Your task to perform on an android device: open app "eBay: The shopping marketplace" (install if not already installed) Image 0: 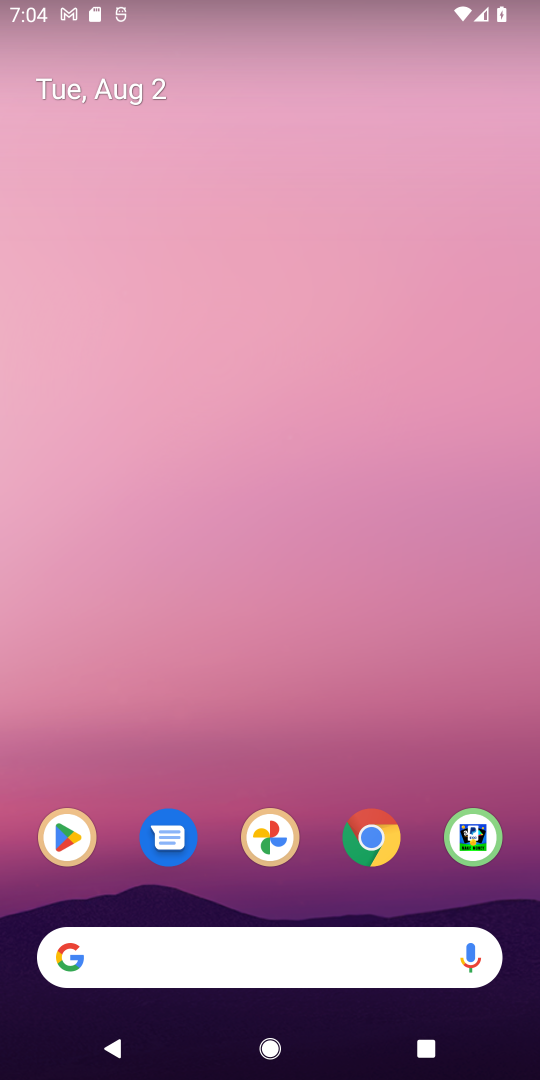
Step 0: press home button
Your task to perform on an android device: open app "eBay: The shopping marketplace" (install if not already installed) Image 1: 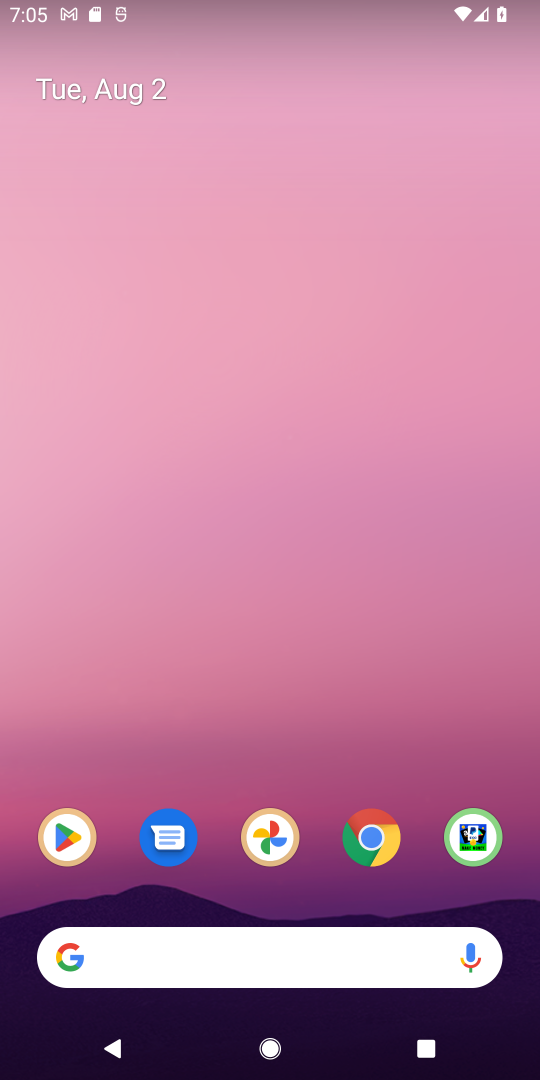
Step 1: drag from (229, 882) to (255, 273)
Your task to perform on an android device: open app "eBay: The shopping marketplace" (install if not already installed) Image 2: 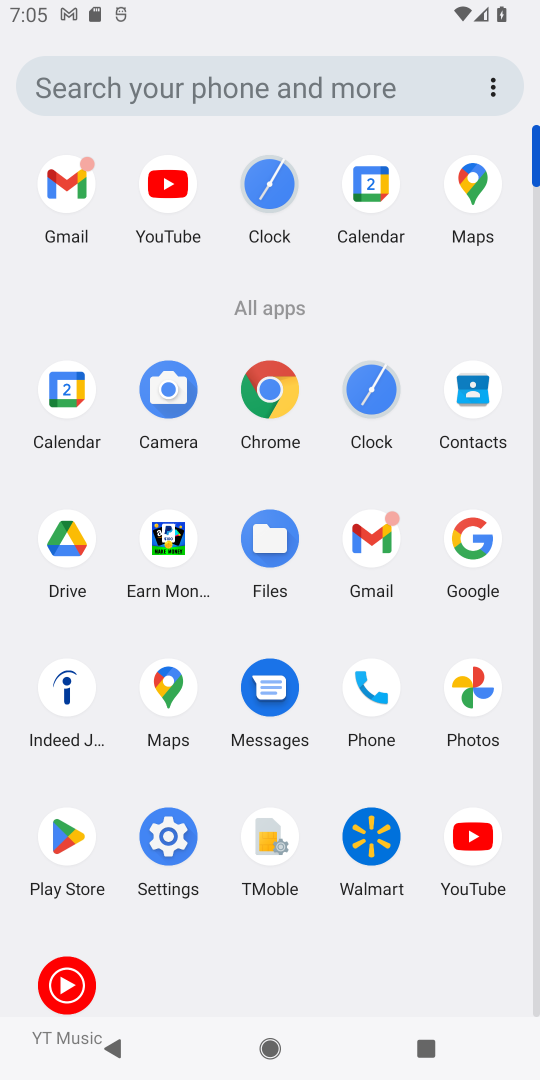
Step 2: drag from (318, 895) to (332, 132)
Your task to perform on an android device: open app "eBay: The shopping marketplace" (install if not already installed) Image 3: 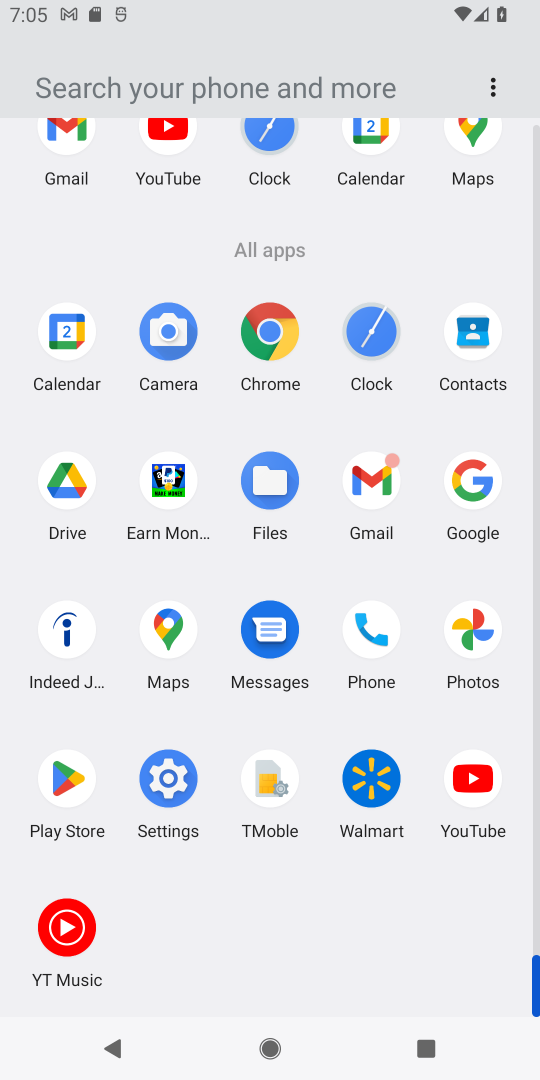
Step 3: drag from (286, 854) to (314, 138)
Your task to perform on an android device: open app "eBay: The shopping marketplace" (install if not already installed) Image 4: 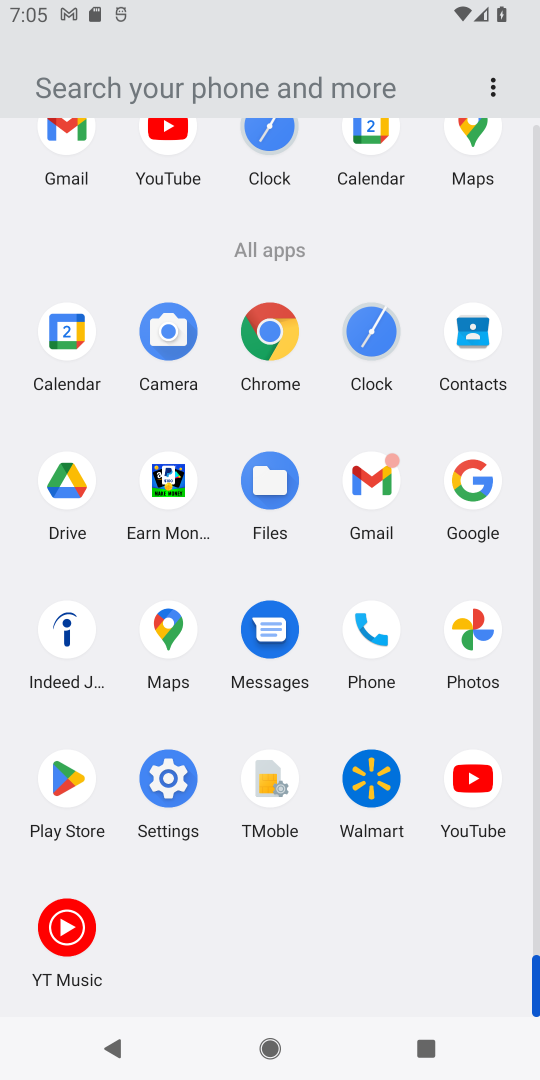
Step 4: click (307, 421)
Your task to perform on an android device: open app "eBay: The shopping marketplace" (install if not already installed) Image 5: 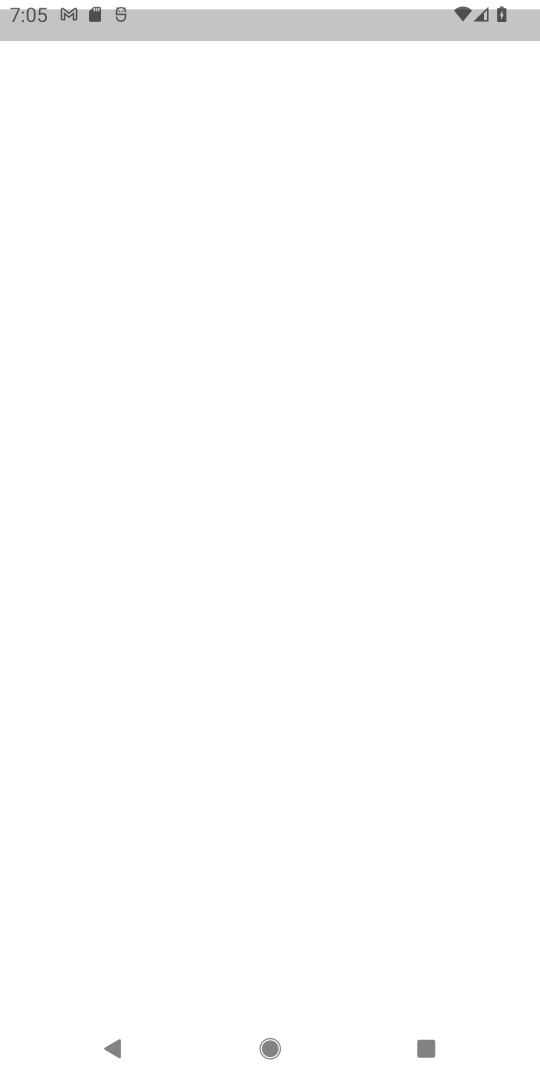
Step 5: drag from (325, 832) to (325, 439)
Your task to perform on an android device: open app "eBay: The shopping marketplace" (install if not already installed) Image 6: 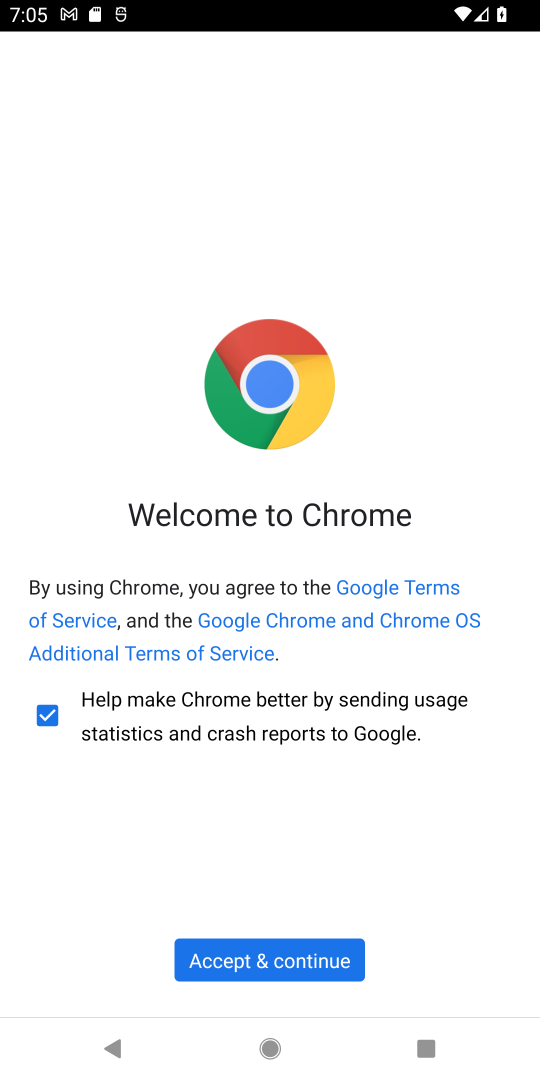
Step 6: drag from (335, 855) to (388, 331)
Your task to perform on an android device: open app "eBay: The shopping marketplace" (install if not already installed) Image 7: 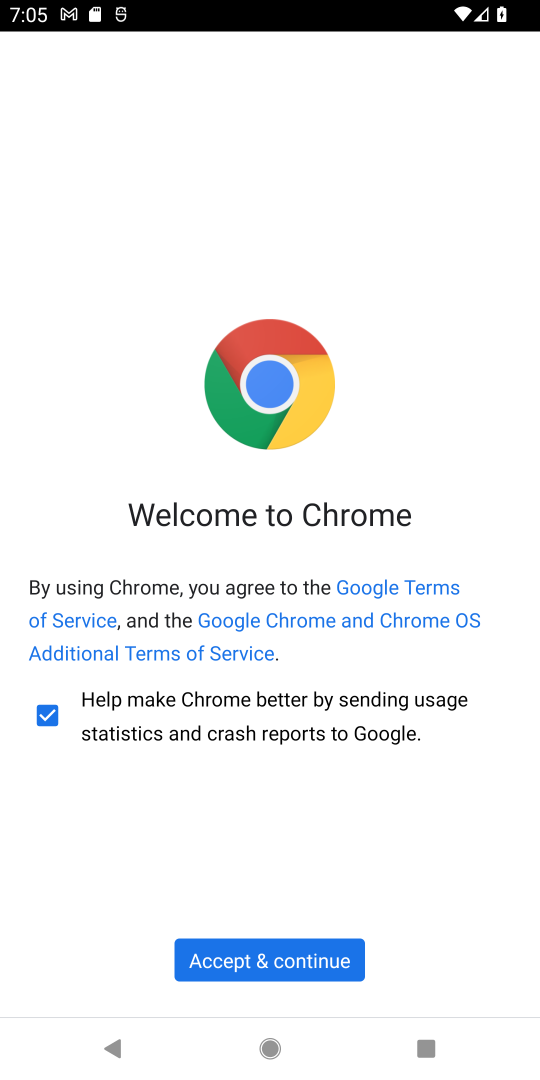
Step 7: drag from (386, 884) to (388, 384)
Your task to perform on an android device: open app "eBay: The shopping marketplace" (install if not already installed) Image 8: 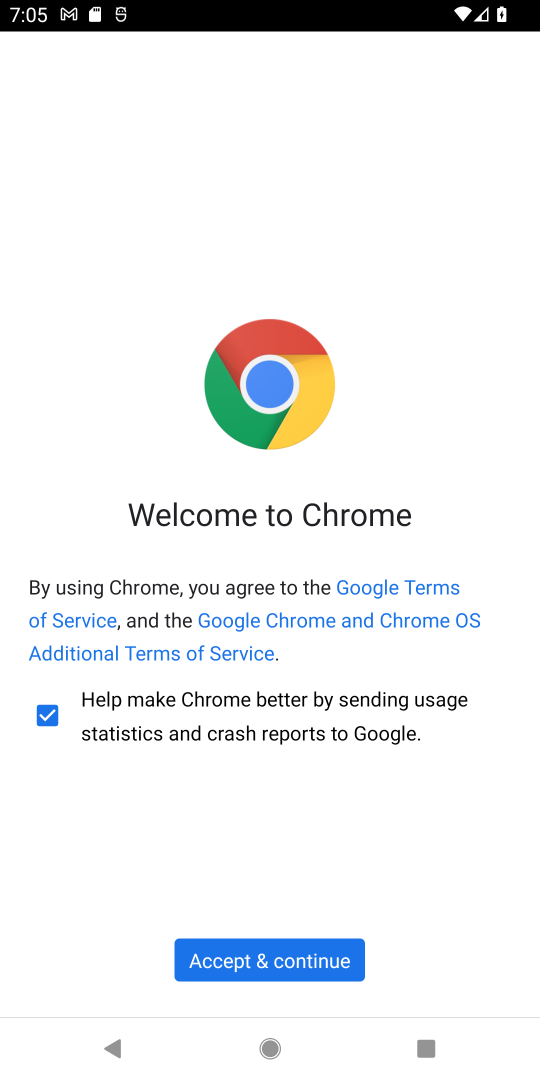
Step 8: drag from (361, 837) to (385, 716)
Your task to perform on an android device: open app "eBay: The shopping marketplace" (install if not already installed) Image 9: 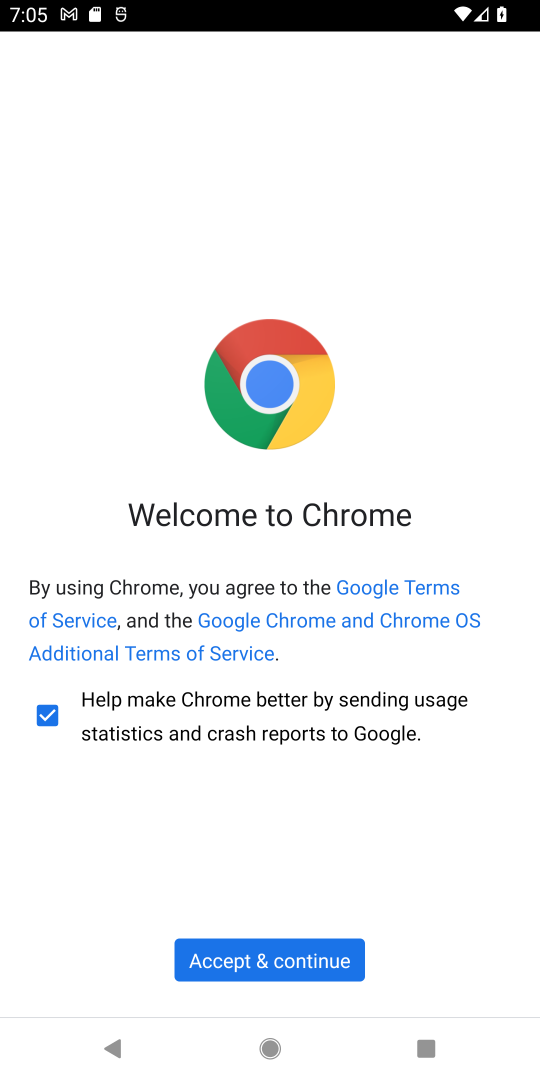
Step 9: drag from (416, 743) to (423, 518)
Your task to perform on an android device: open app "eBay: The shopping marketplace" (install if not already installed) Image 10: 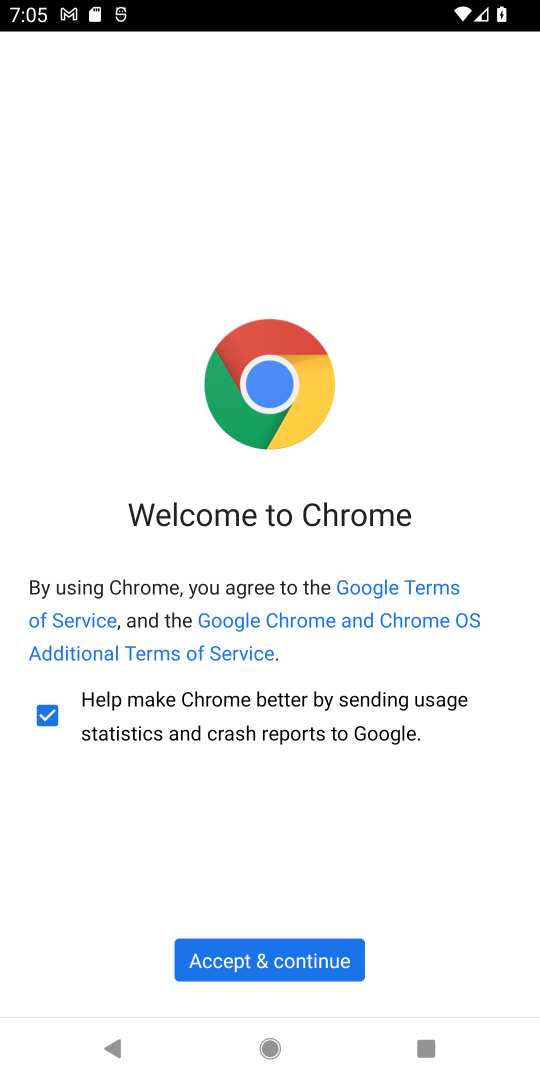
Step 10: drag from (375, 773) to (375, 706)
Your task to perform on an android device: open app "eBay: The shopping marketplace" (install if not already installed) Image 11: 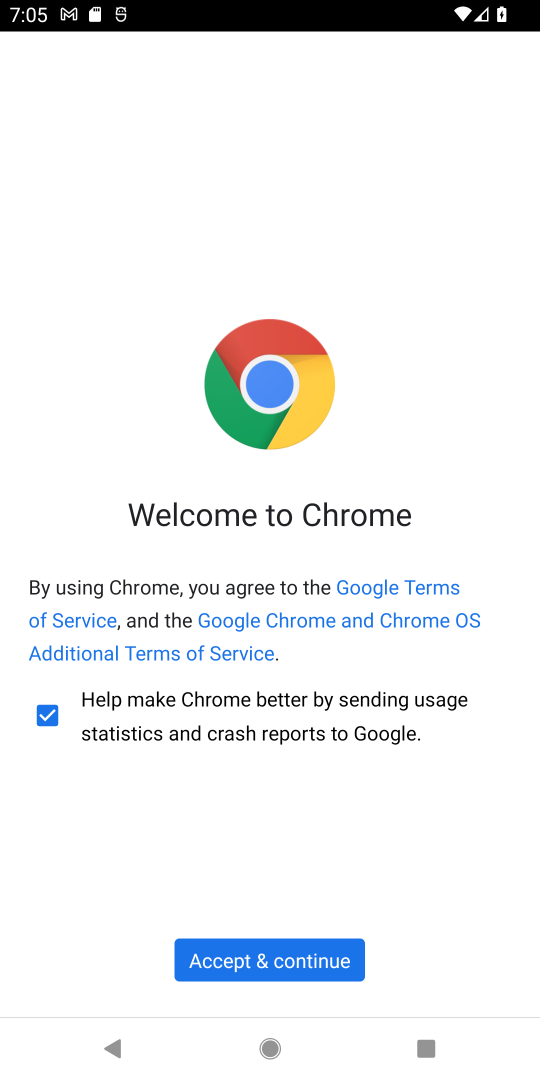
Step 11: drag from (419, 788) to (469, 466)
Your task to perform on an android device: open app "eBay: The shopping marketplace" (install if not already installed) Image 12: 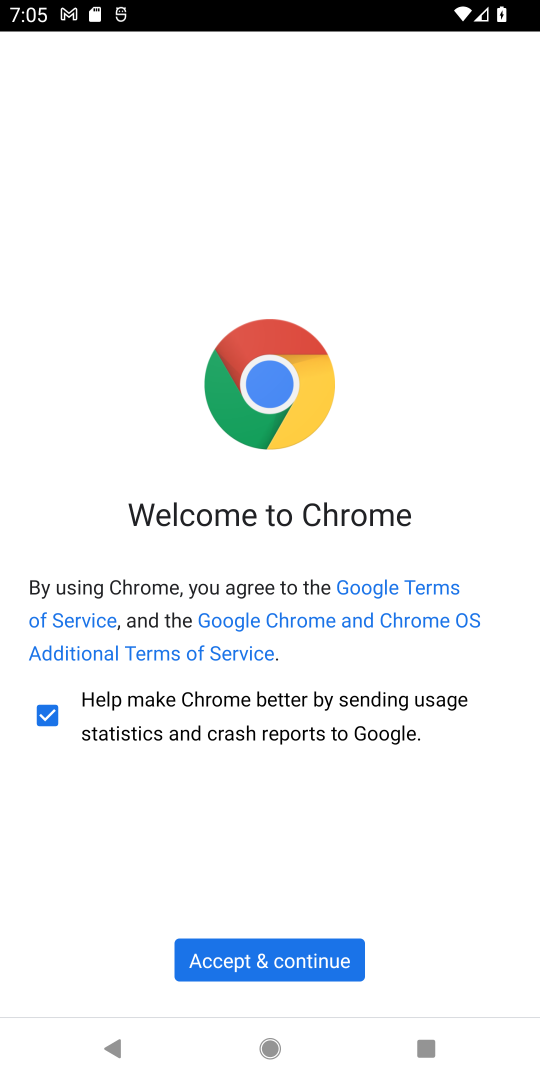
Step 12: drag from (280, 543) to (352, 857)
Your task to perform on an android device: open app "eBay: The shopping marketplace" (install if not already installed) Image 13: 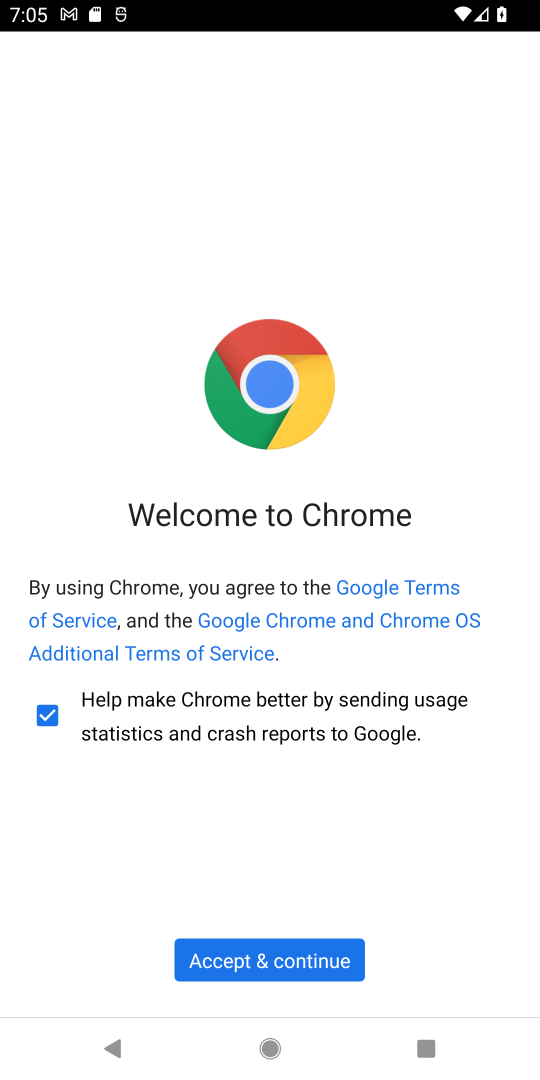
Step 13: drag from (300, 527) to (342, 1068)
Your task to perform on an android device: open app "eBay: The shopping marketplace" (install if not already installed) Image 14: 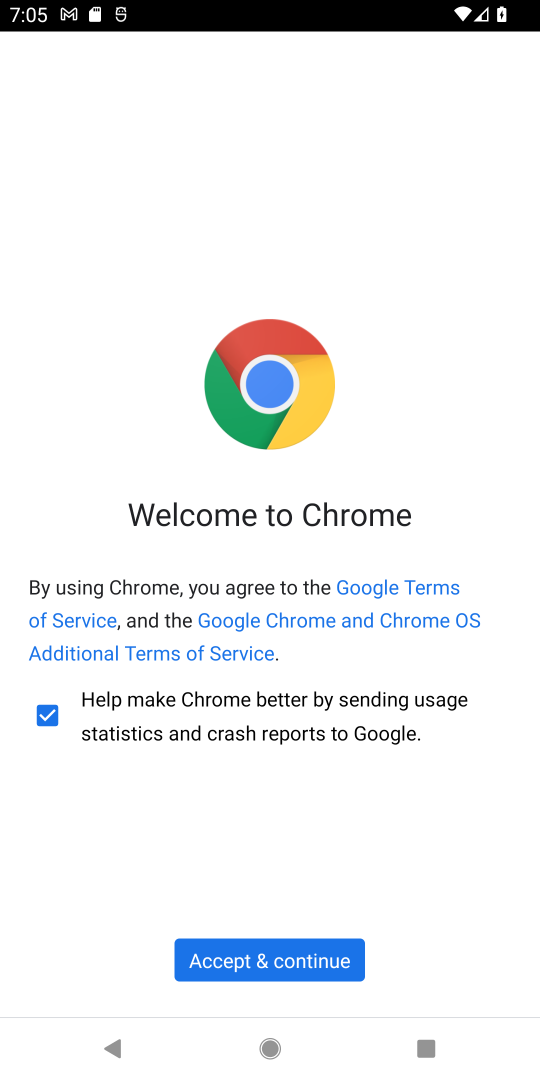
Step 14: drag from (287, 521) to (325, 832)
Your task to perform on an android device: open app "eBay: The shopping marketplace" (install if not already installed) Image 15: 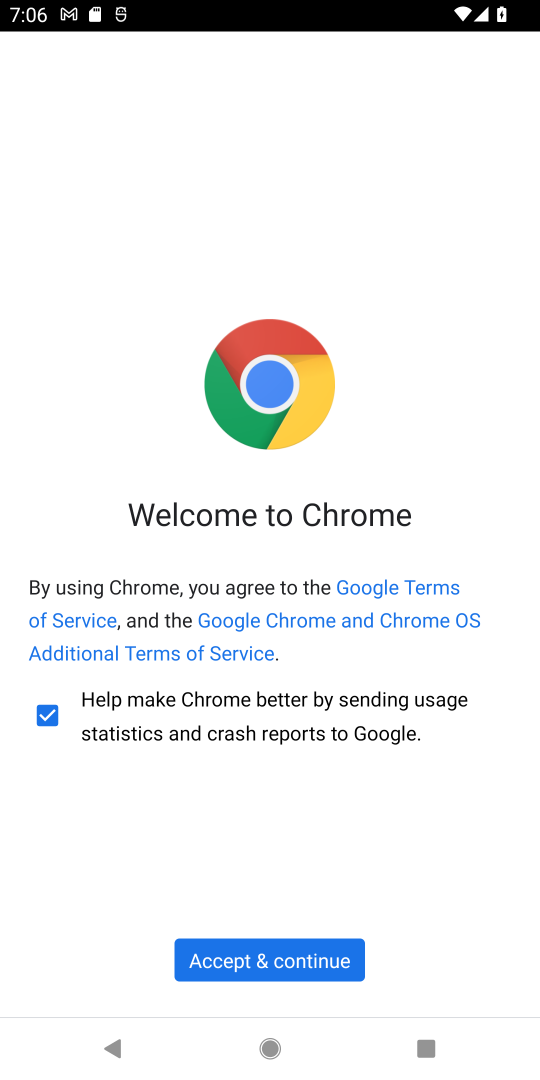
Step 15: drag from (234, 875) to (301, 441)
Your task to perform on an android device: open app "eBay: The shopping marketplace" (install if not already installed) Image 16: 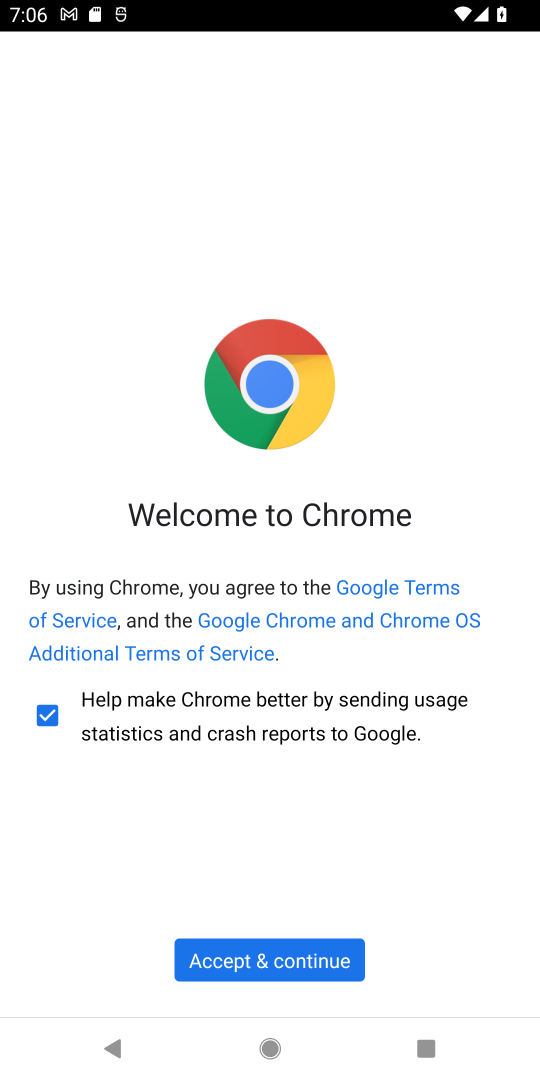
Step 16: press home button
Your task to perform on an android device: open app "eBay: The shopping marketplace" (install if not already installed) Image 17: 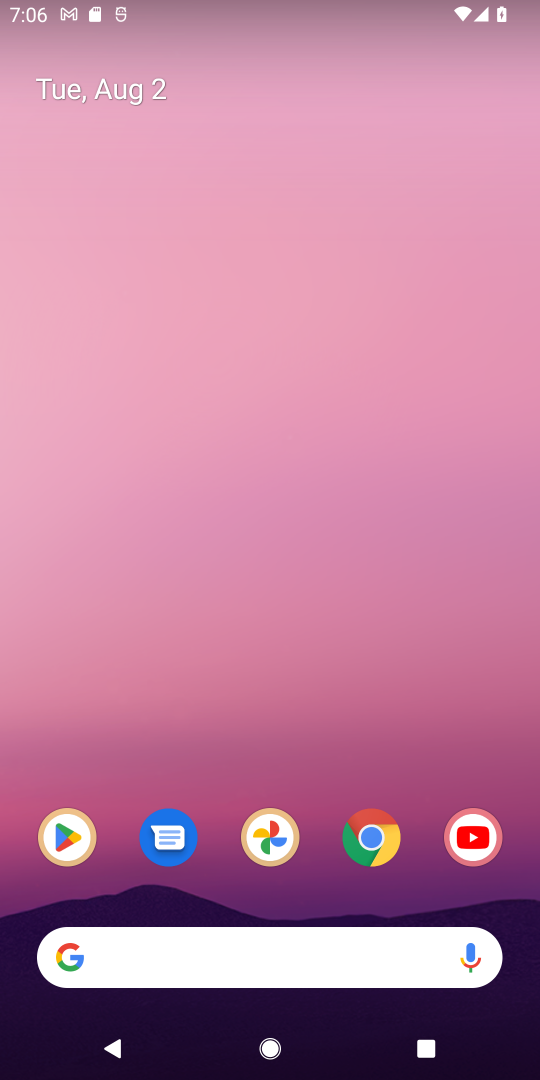
Step 17: drag from (245, 853) to (338, 462)
Your task to perform on an android device: open app "eBay: The shopping marketplace" (install if not already installed) Image 18: 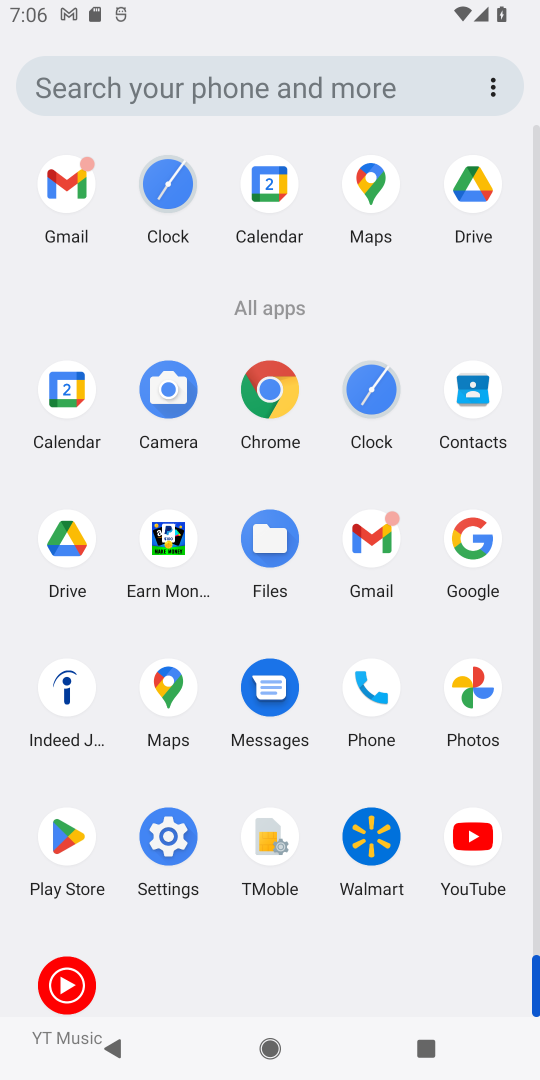
Step 18: drag from (291, 937) to (331, 409)
Your task to perform on an android device: open app "eBay: The shopping marketplace" (install if not already installed) Image 19: 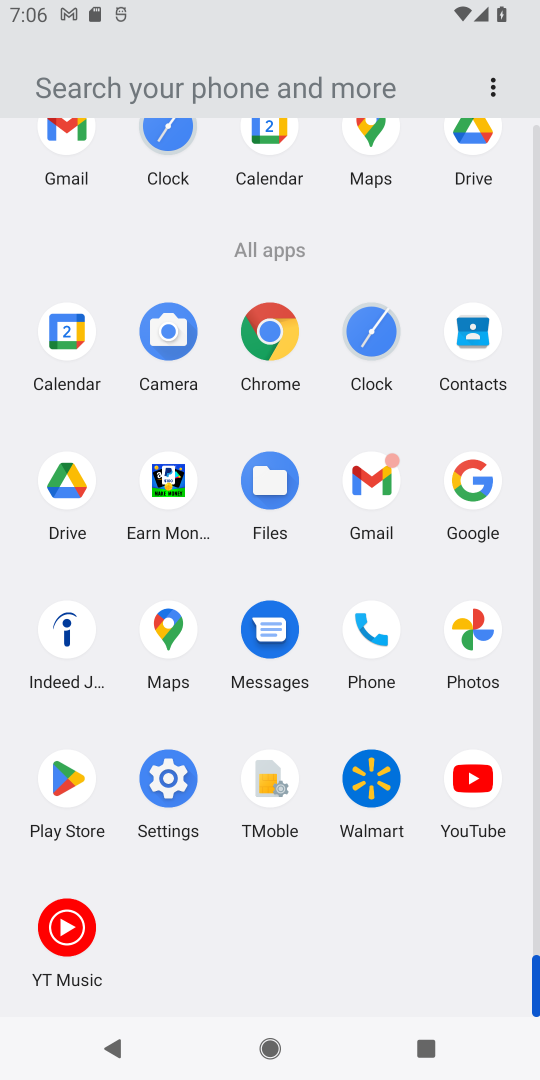
Step 19: click (72, 786)
Your task to perform on an android device: open app "eBay: The shopping marketplace" (install if not already installed) Image 20: 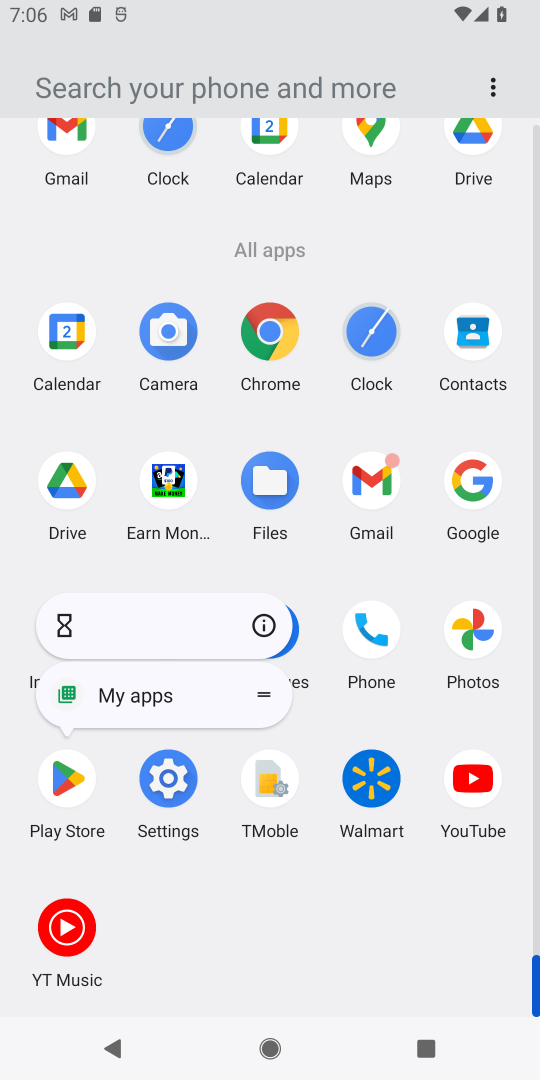
Step 20: click (267, 623)
Your task to perform on an android device: open app "eBay: The shopping marketplace" (install if not already installed) Image 21: 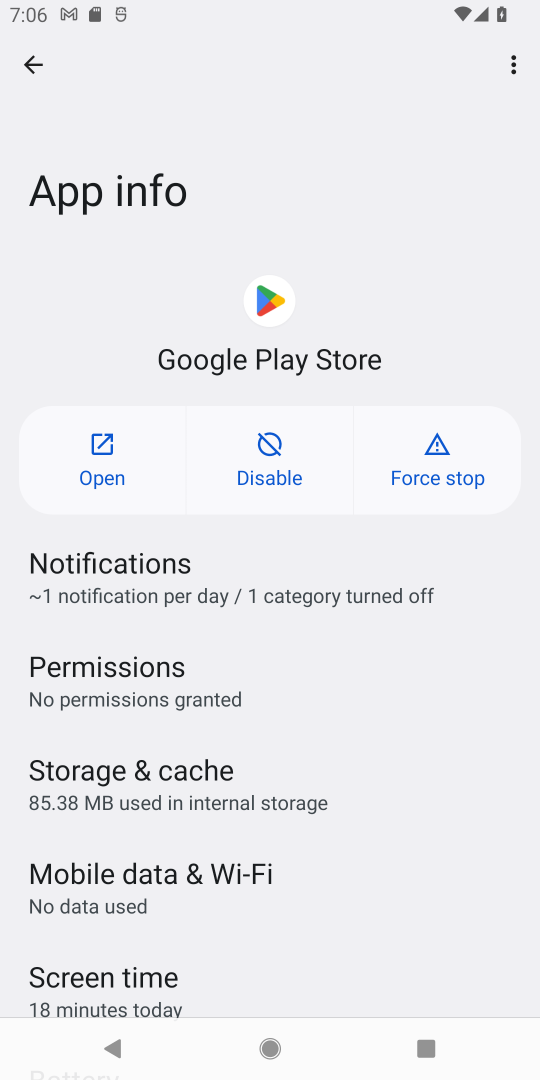
Step 21: click (115, 458)
Your task to perform on an android device: open app "eBay: The shopping marketplace" (install if not already installed) Image 22: 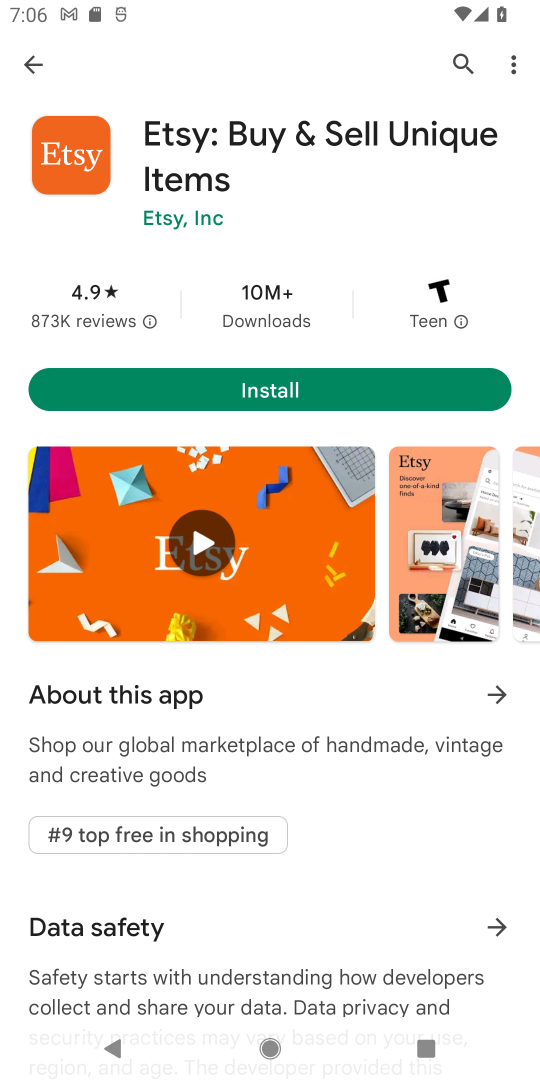
Step 22: drag from (351, 238) to (373, 1068)
Your task to perform on an android device: open app "eBay: The shopping marketplace" (install if not already installed) Image 23: 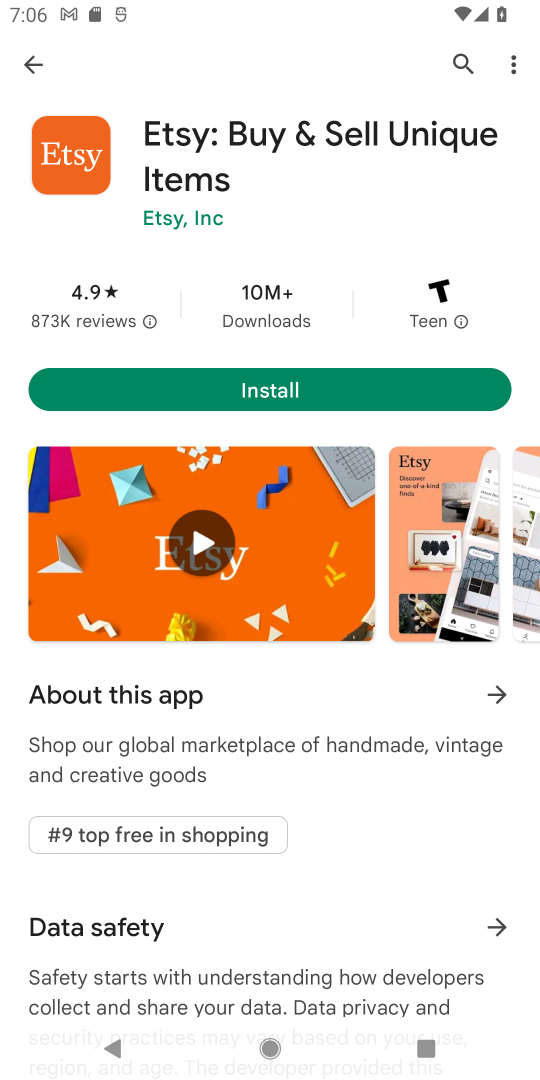
Step 23: drag from (355, 270) to (462, 1071)
Your task to perform on an android device: open app "eBay: The shopping marketplace" (install if not already installed) Image 24: 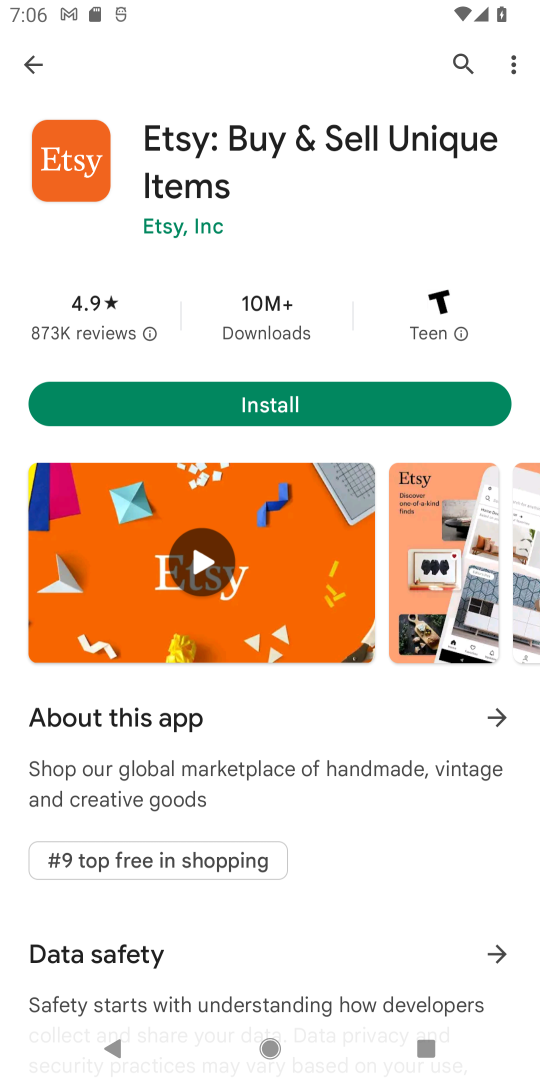
Step 24: drag from (348, 905) to (348, 448)
Your task to perform on an android device: open app "eBay: The shopping marketplace" (install if not already installed) Image 25: 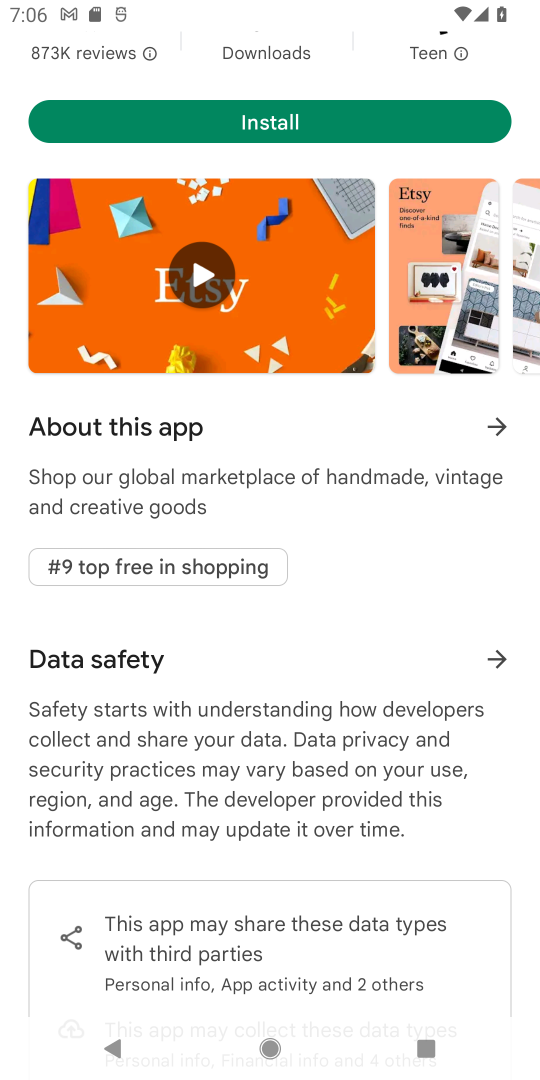
Step 25: drag from (349, 276) to (433, 1066)
Your task to perform on an android device: open app "eBay: The shopping marketplace" (install if not already installed) Image 26: 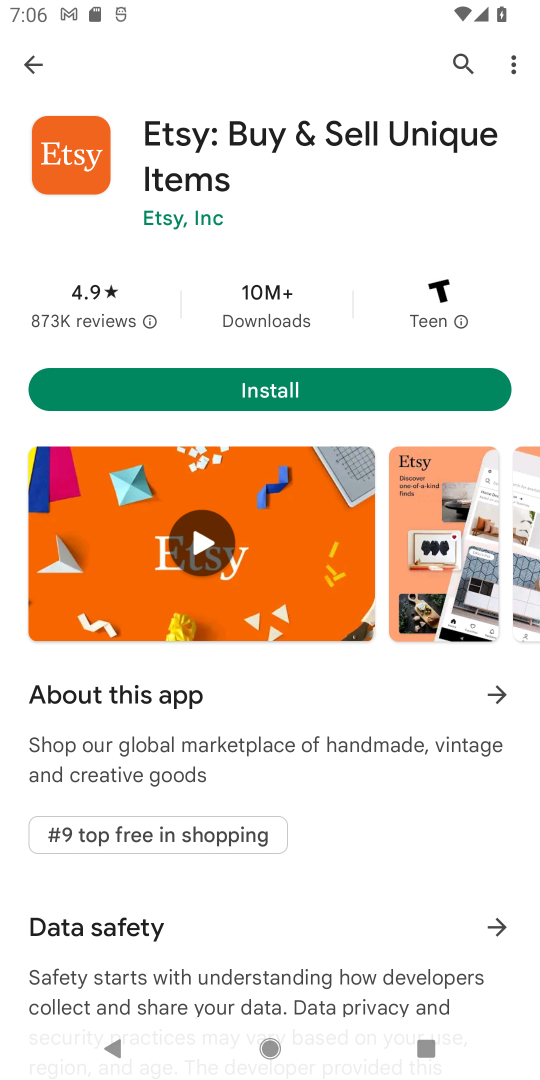
Step 26: drag from (376, 258) to (501, 1077)
Your task to perform on an android device: open app "eBay: The shopping marketplace" (install if not already installed) Image 27: 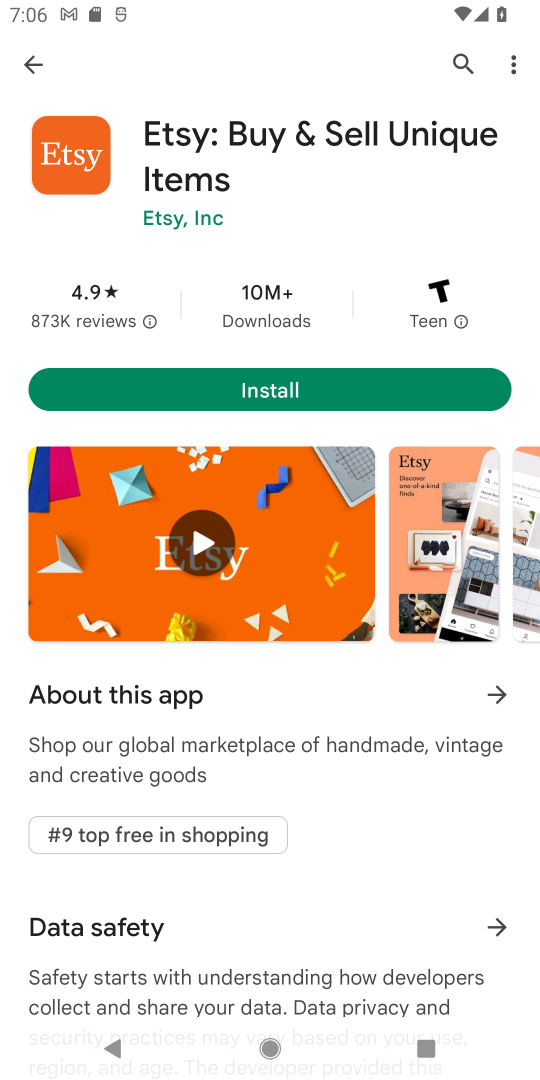
Step 27: drag from (337, 256) to (356, 837)
Your task to perform on an android device: open app "eBay: The shopping marketplace" (install if not already installed) Image 28: 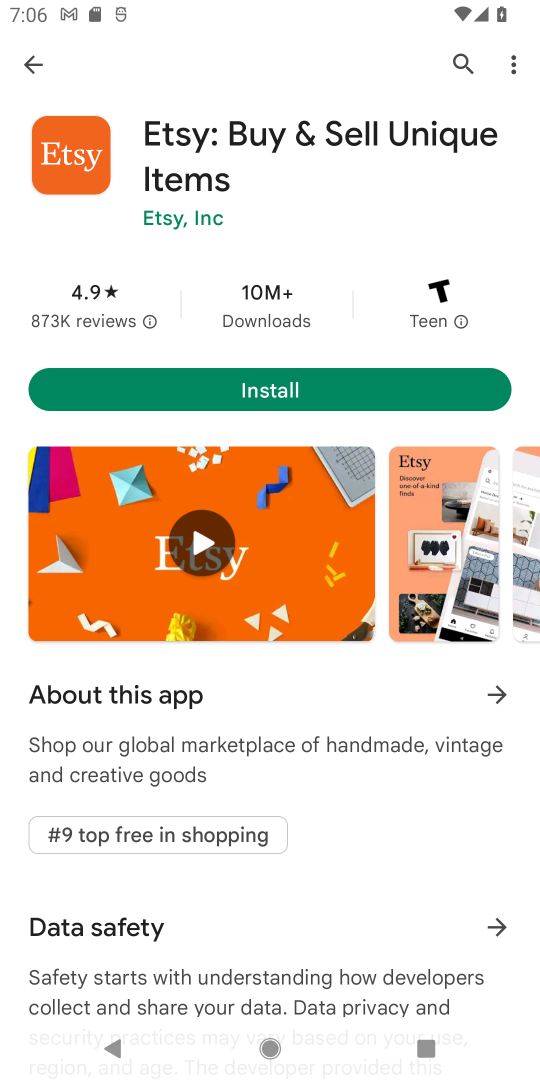
Step 28: drag from (361, 255) to (491, 205)
Your task to perform on an android device: open app "eBay: The shopping marketplace" (install if not already installed) Image 29: 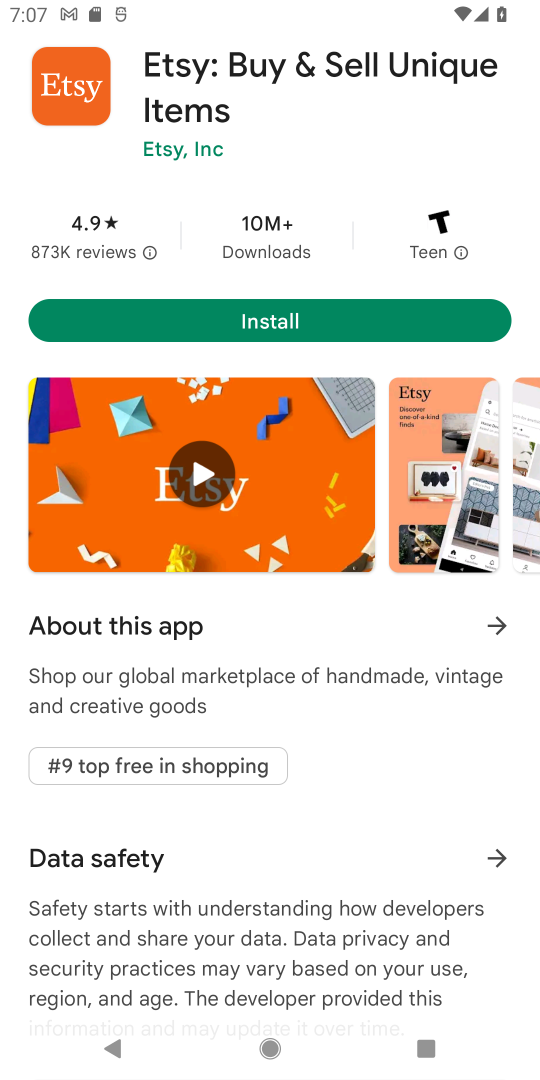
Step 29: drag from (335, 178) to (370, 632)
Your task to perform on an android device: open app "eBay: The shopping marketplace" (install if not already installed) Image 30: 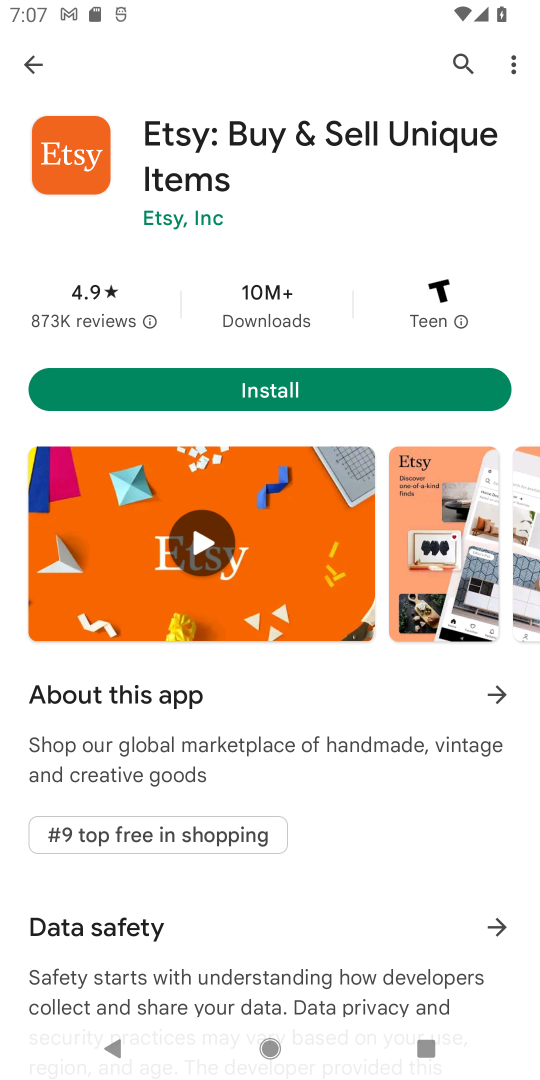
Step 30: drag from (351, 221) to (440, 845)
Your task to perform on an android device: open app "eBay: The shopping marketplace" (install if not already installed) Image 31: 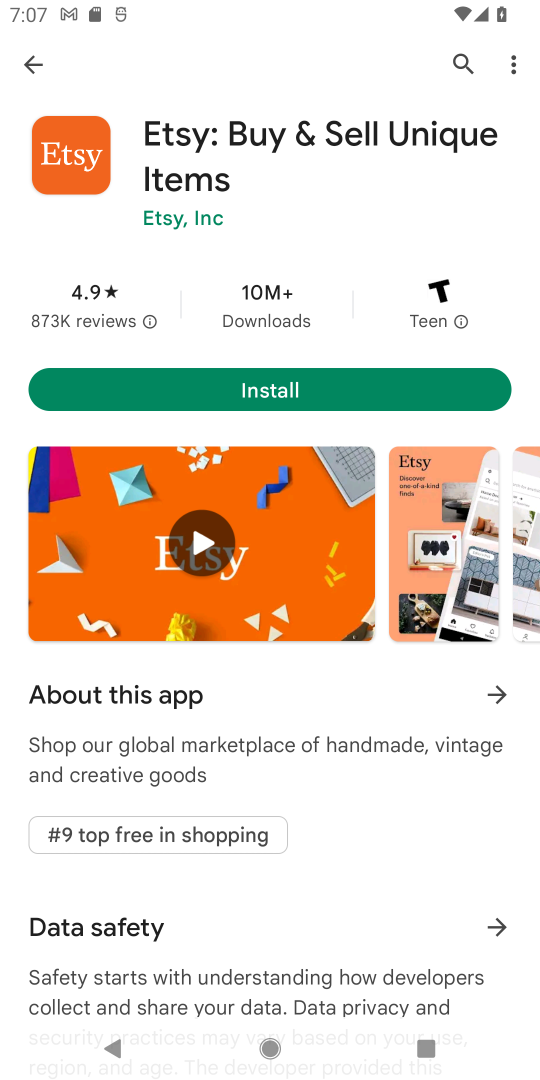
Step 31: drag from (353, 272) to (261, 917)
Your task to perform on an android device: open app "eBay: The shopping marketplace" (install if not already installed) Image 32: 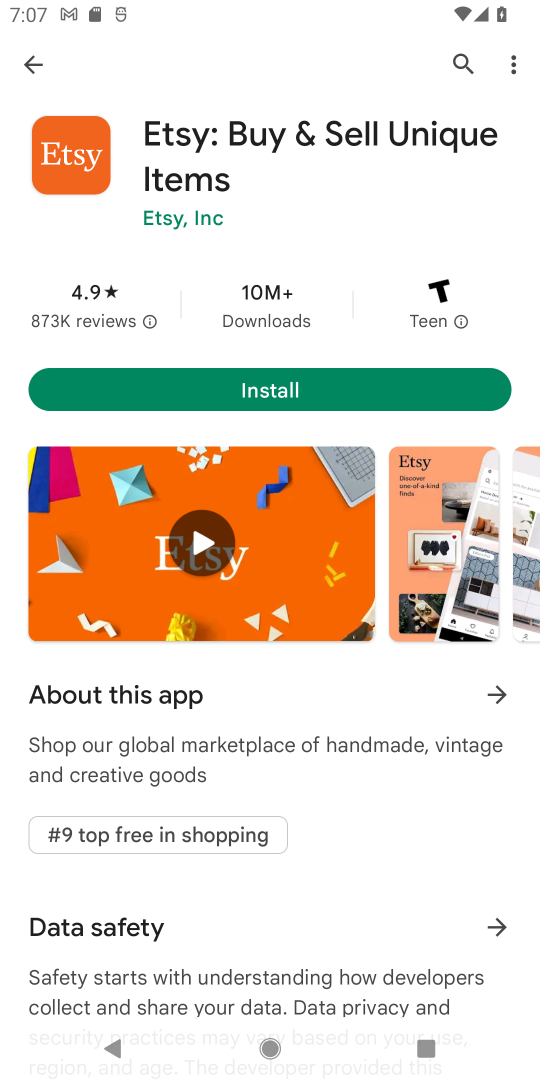
Step 32: drag from (329, 235) to (297, 912)
Your task to perform on an android device: open app "eBay: The shopping marketplace" (install if not already installed) Image 33: 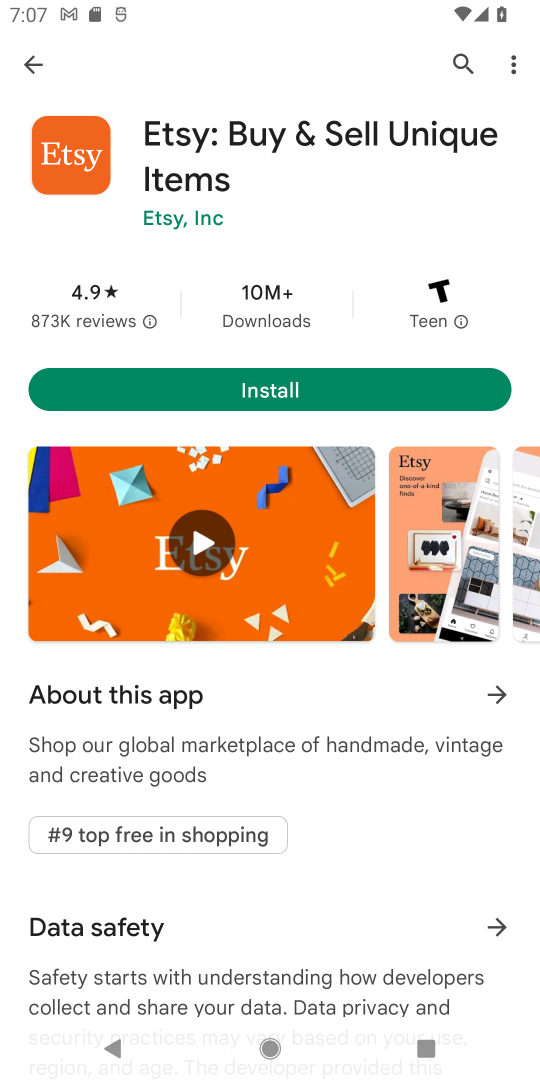
Step 33: drag from (340, 257) to (516, 857)
Your task to perform on an android device: open app "eBay: The shopping marketplace" (install if not already installed) Image 34: 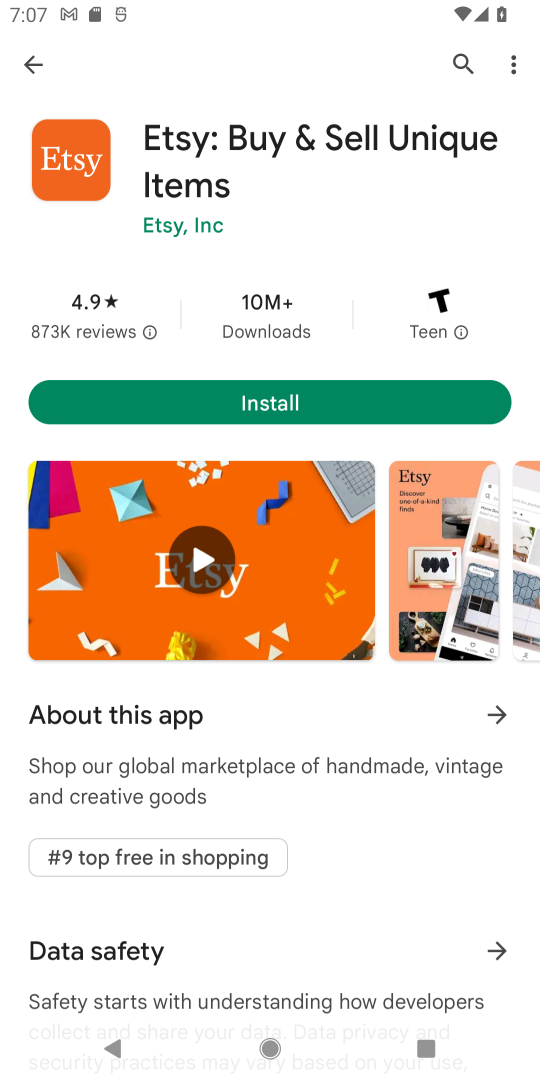
Step 34: drag from (362, 898) to (289, 101)
Your task to perform on an android device: open app "eBay: The shopping marketplace" (install if not already installed) Image 35: 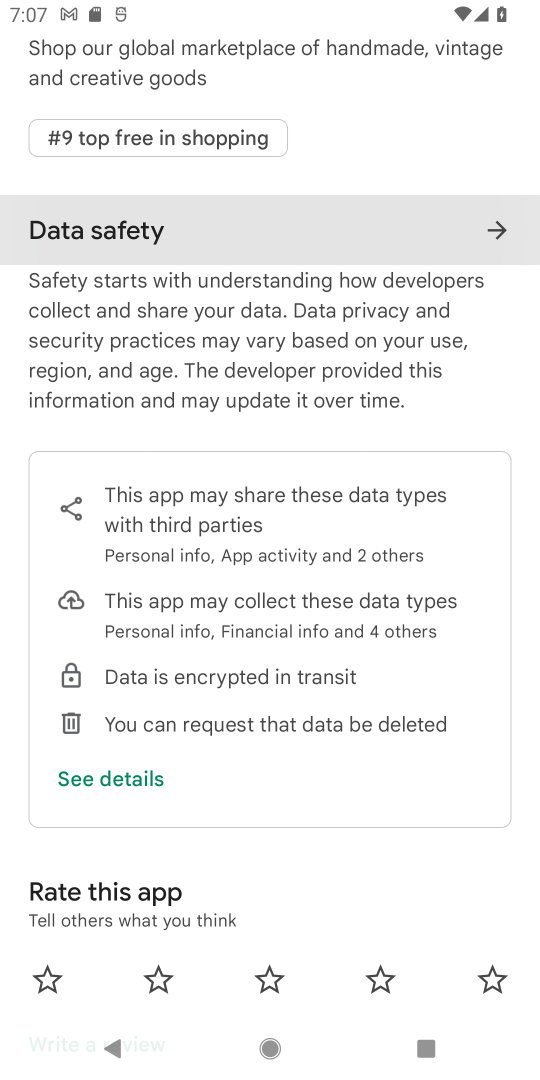
Step 35: drag from (261, 424) to (526, 330)
Your task to perform on an android device: open app "eBay: The shopping marketplace" (install if not already installed) Image 36: 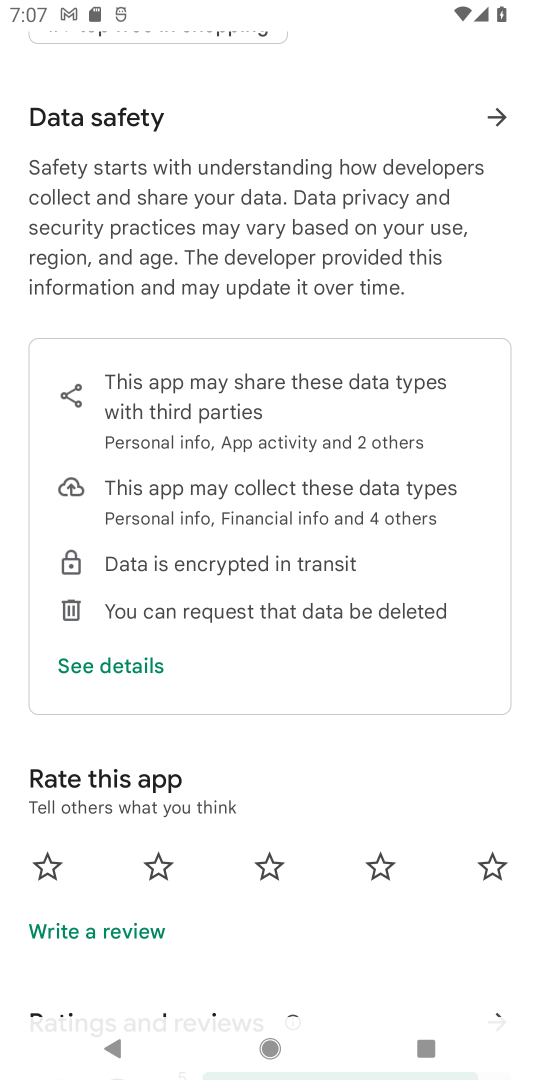
Step 36: drag from (391, 211) to (370, 1042)
Your task to perform on an android device: open app "eBay: The shopping marketplace" (install if not already installed) Image 37: 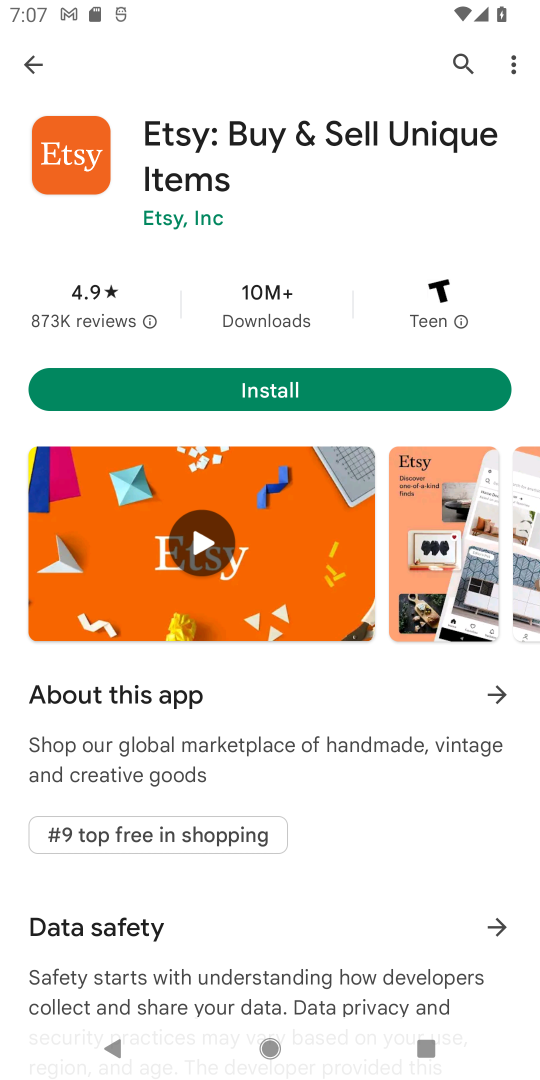
Step 37: drag from (385, 297) to (356, 963)
Your task to perform on an android device: open app "eBay: The shopping marketplace" (install if not already installed) Image 38: 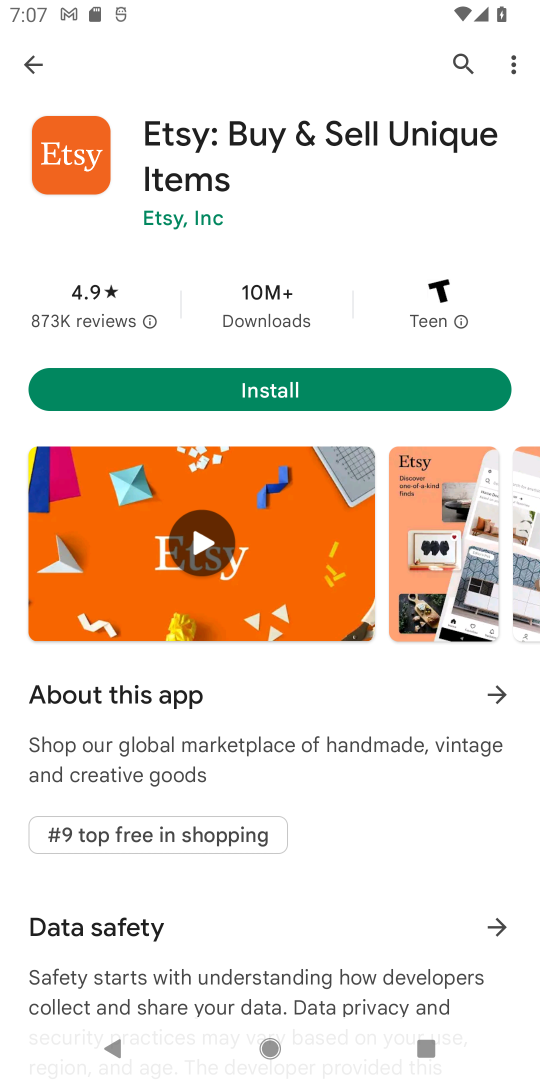
Step 38: click (463, 65)
Your task to perform on an android device: open app "eBay: The shopping marketplace" (install if not already installed) Image 39: 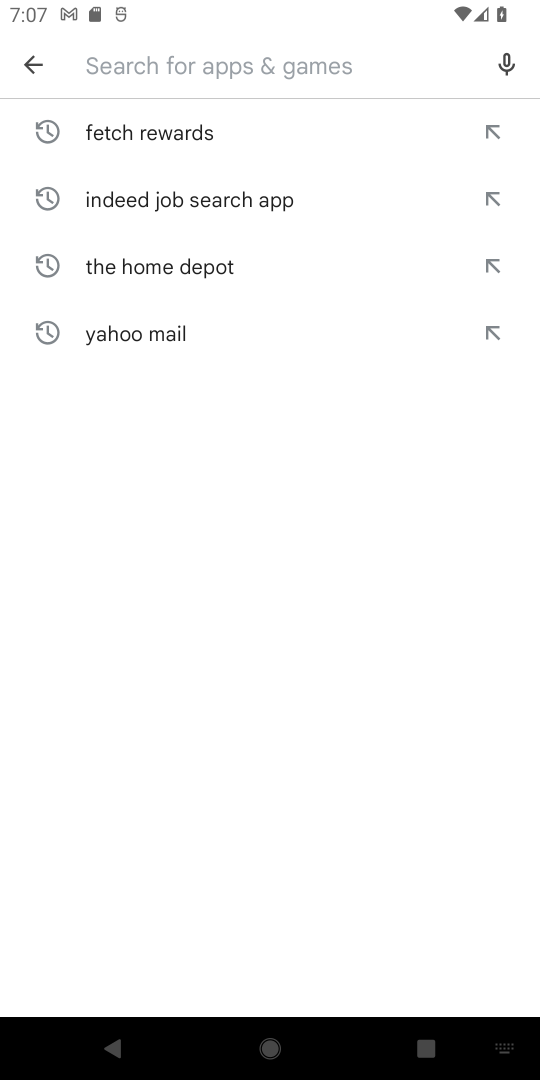
Step 39: type "eBay: The shopping marketplace"
Your task to perform on an android device: open app "eBay: The shopping marketplace" (install if not already installed) Image 40: 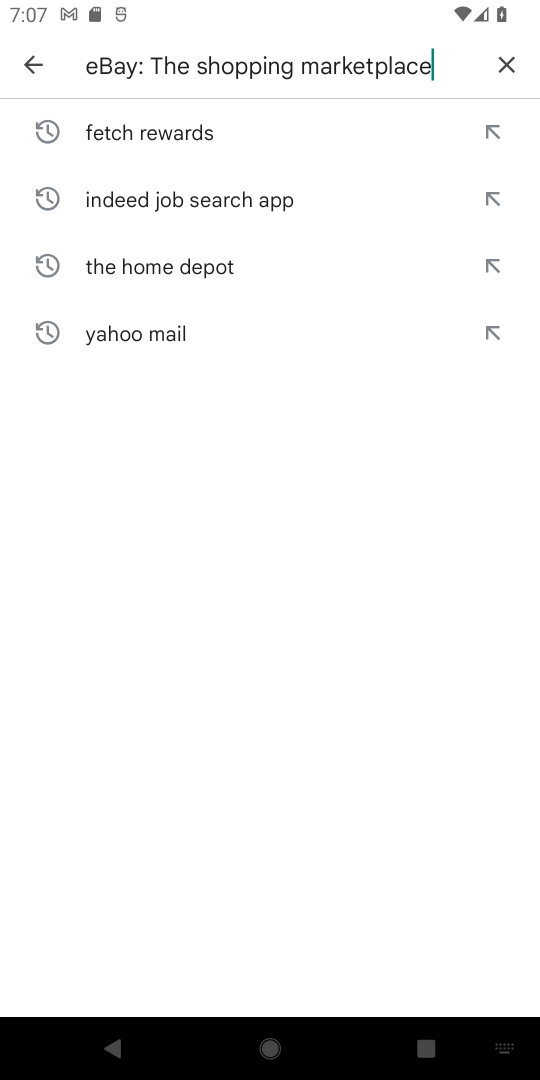
Step 40: type ""
Your task to perform on an android device: open app "eBay: The shopping marketplace" (install if not already installed) Image 41: 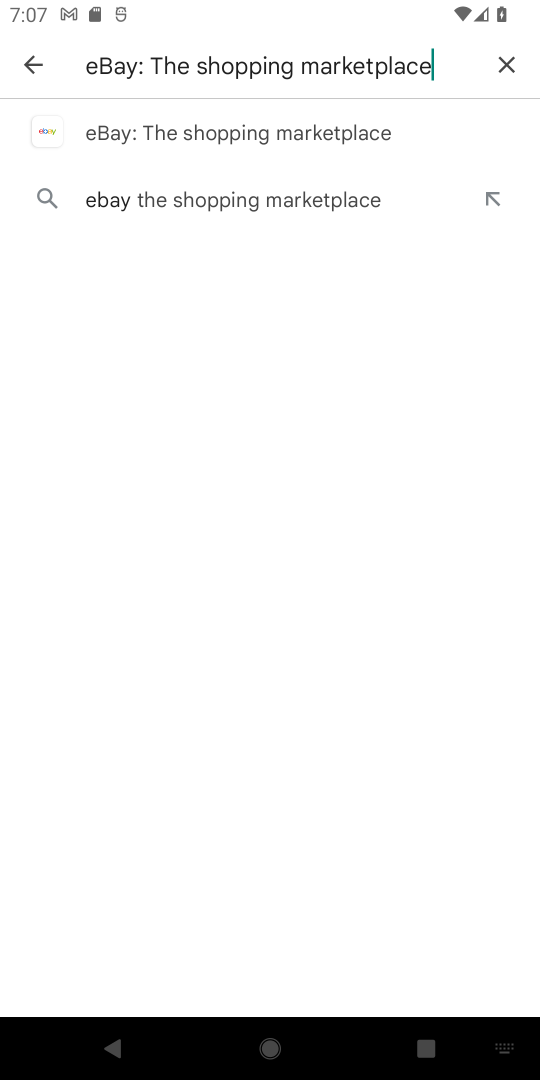
Step 41: click (122, 142)
Your task to perform on an android device: open app "eBay: The shopping marketplace" (install if not already installed) Image 42: 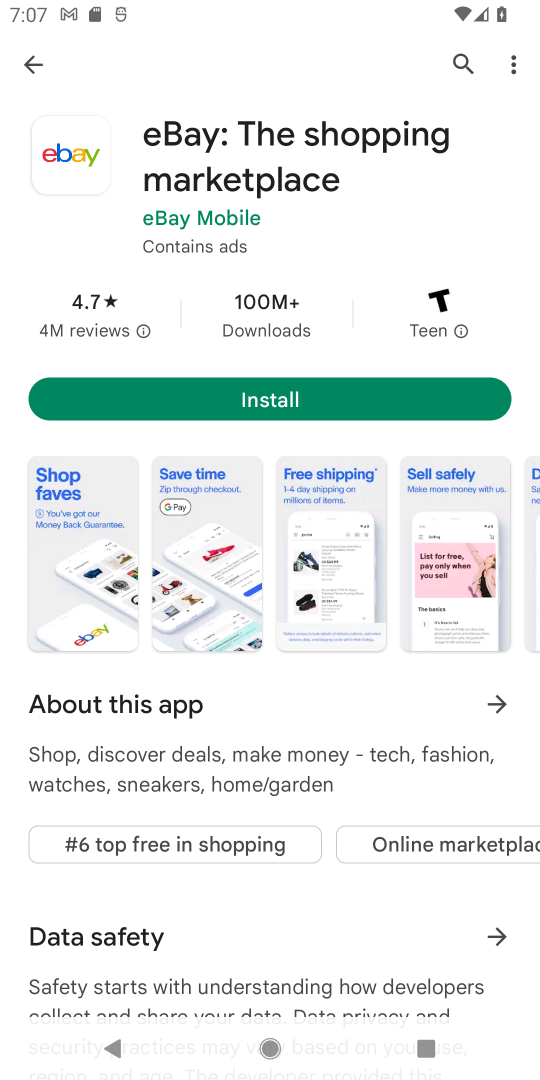
Step 42: drag from (296, 226) to (392, 846)
Your task to perform on an android device: open app "eBay: The shopping marketplace" (install if not already installed) Image 43: 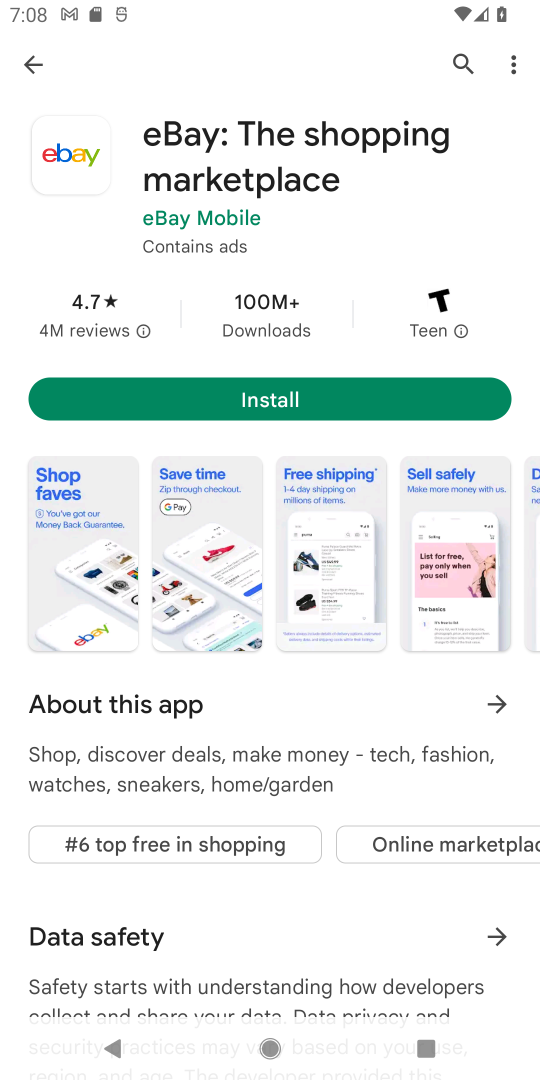
Step 43: drag from (361, 297) to (353, 727)
Your task to perform on an android device: open app "eBay: The shopping marketplace" (install if not already installed) Image 44: 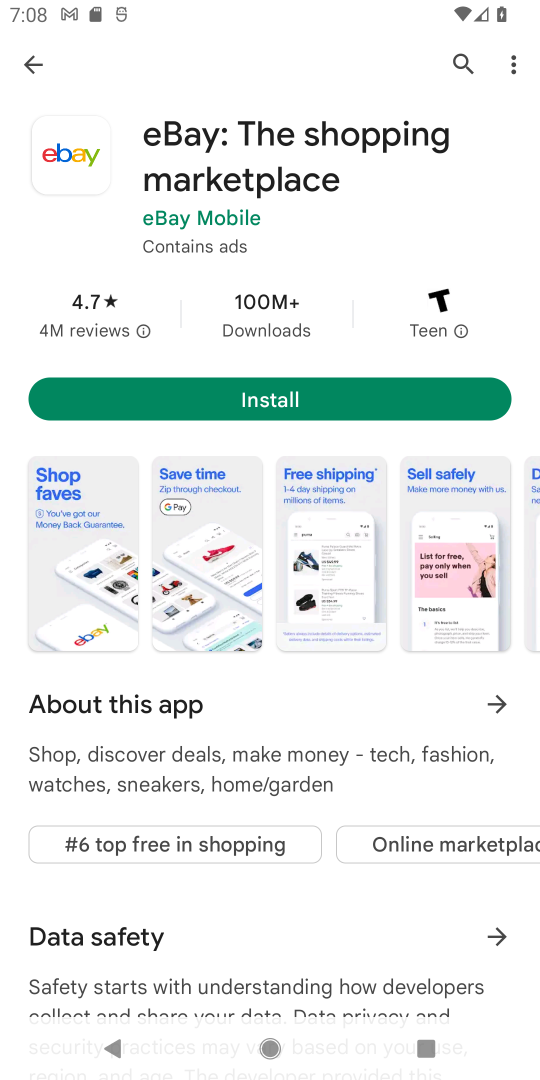
Step 44: drag from (349, 319) to (317, 792)
Your task to perform on an android device: open app "eBay: The shopping marketplace" (install if not already installed) Image 45: 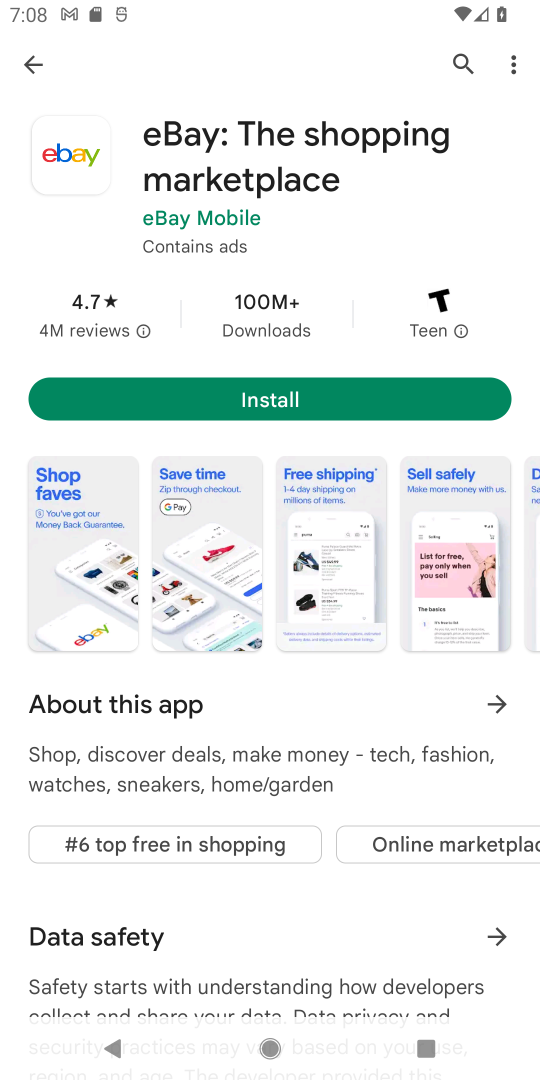
Step 45: drag from (313, 239) to (333, 635)
Your task to perform on an android device: open app "eBay: The shopping marketplace" (install if not already installed) Image 46: 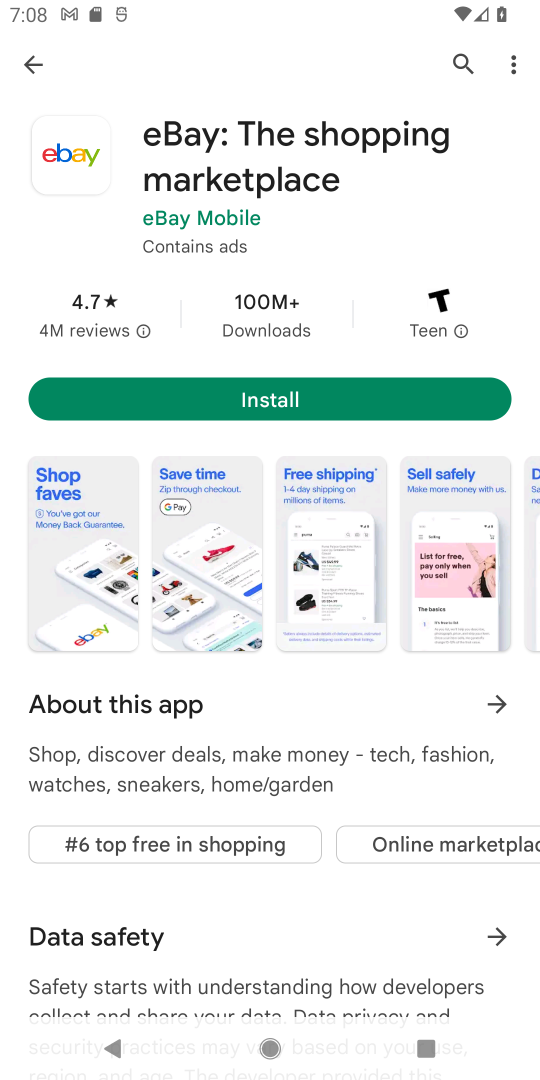
Step 46: drag from (374, 238) to (318, 770)
Your task to perform on an android device: open app "eBay: The shopping marketplace" (install if not already installed) Image 47: 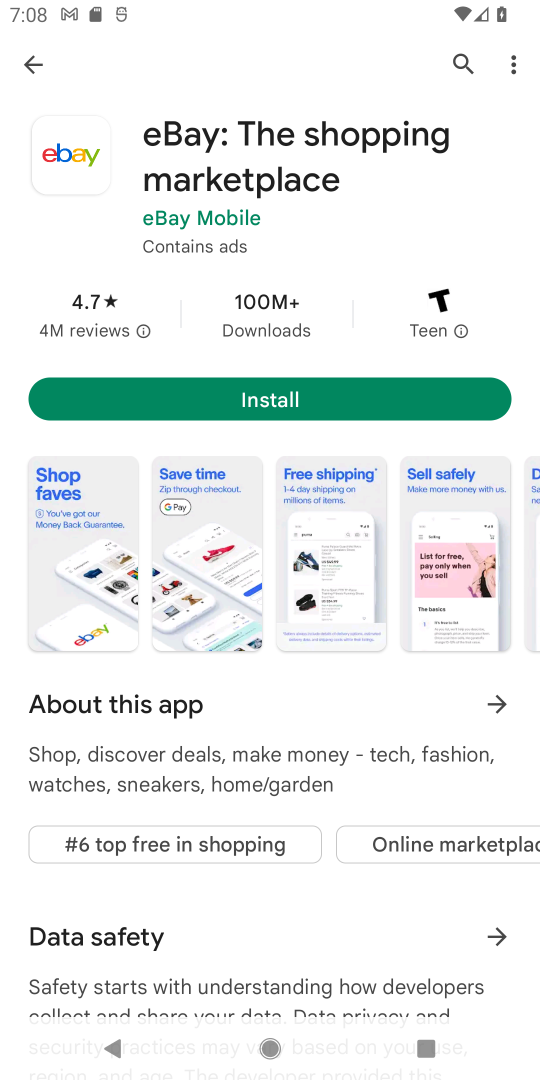
Step 47: drag from (373, 307) to (350, 784)
Your task to perform on an android device: open app "eBay: The shopping marketplace" (install if not already installed) Image 48: 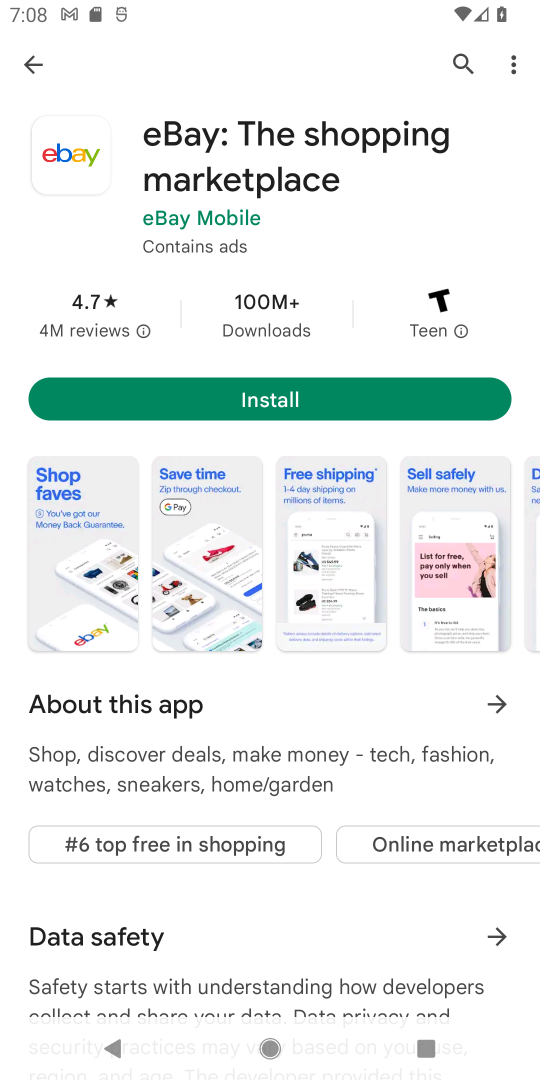
Step 48: click (200, 380)
Your task to perform on an android device: open app "eBay: The shopping marketplace" (install if not already installed) Image 49: 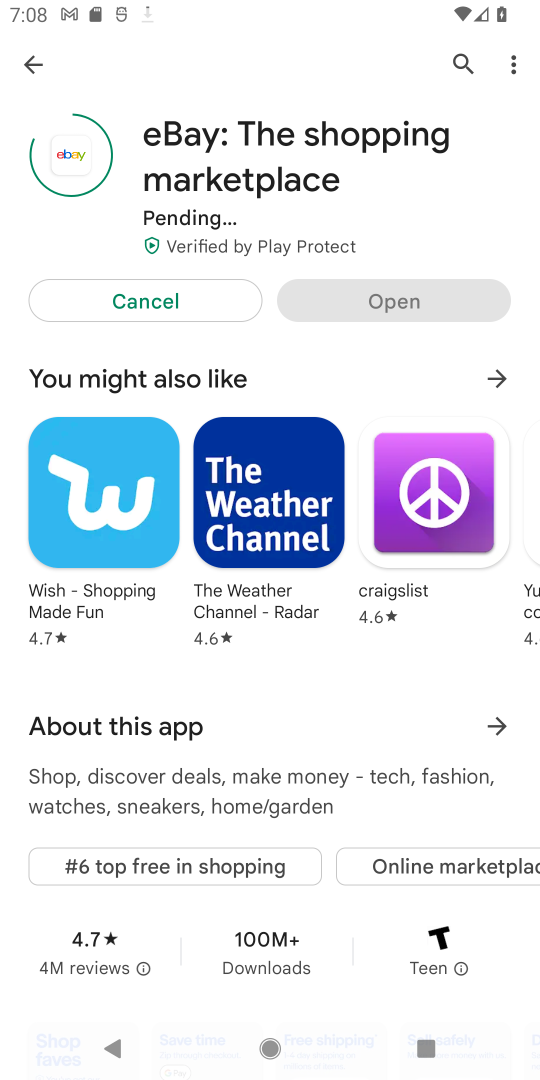
Step 49: drag from (296, 233) to (266, 597)
Your task to perform on an android device: open app "eBay: The shopping marketplace" (install if not already installed) Image 50: 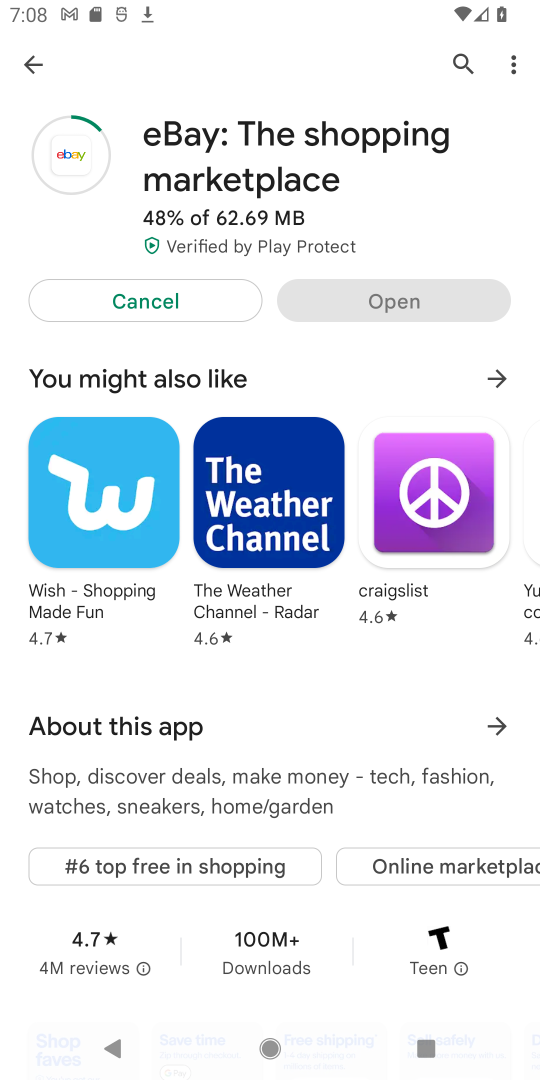
Step 50: drag from (308, 253) to (255, 489)
Your task to perform on an android device: open app "eBay: The shopping marketplace" (install if not already installed) Image 51: 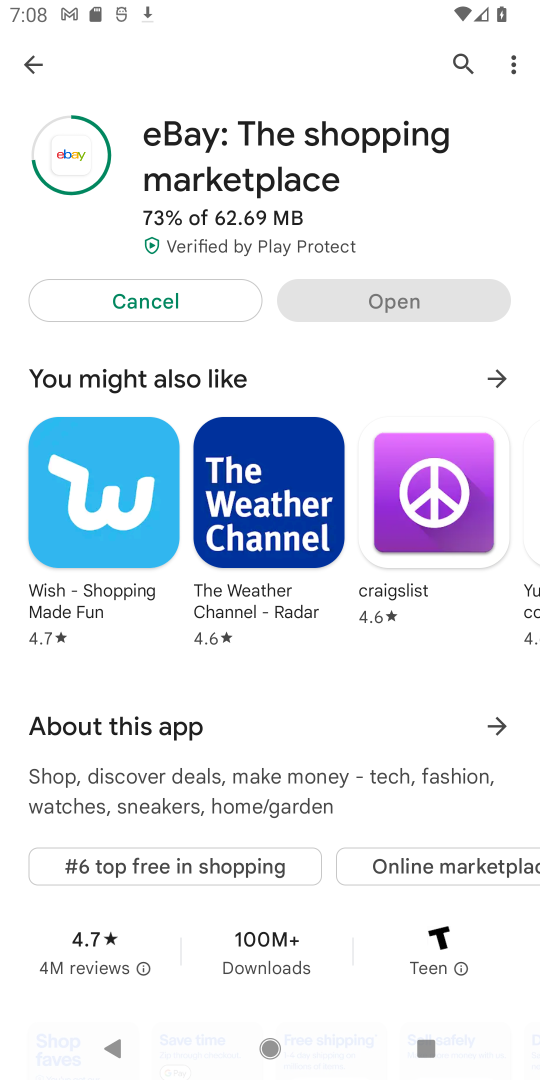
Step 51: drag from (341, 221) to (383, 899)
Your task to perform on an android device: open app "eBay: The shopping marketplace" (install if not already installed) Image 52: 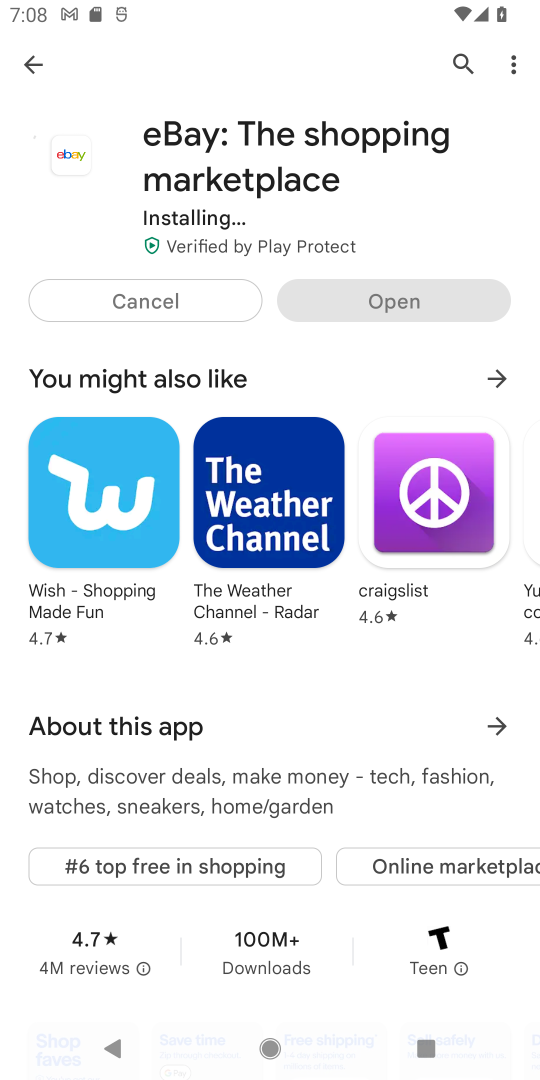
Step 52: drag from (358, 246) to (371, 663)
Your task to perform on an android device: open app "eBay: The shopping marketplace" (install if not already installed) Image 53: 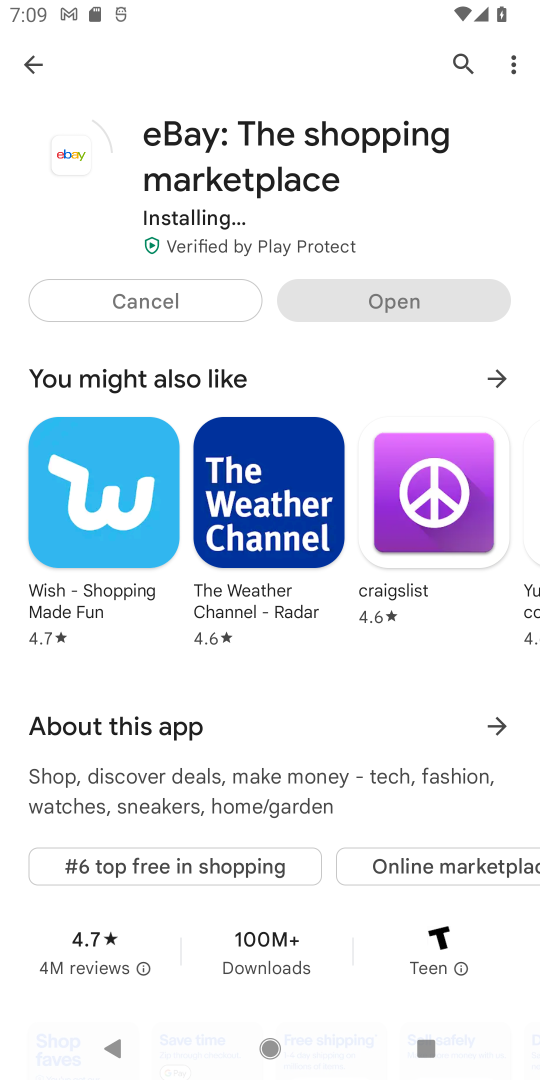
Step 53: drag from (248, 206) to (235, 727)
Your task to perform on an android device: open app "eBay: The shopping marketplace" (install if not already installed) Image 54: 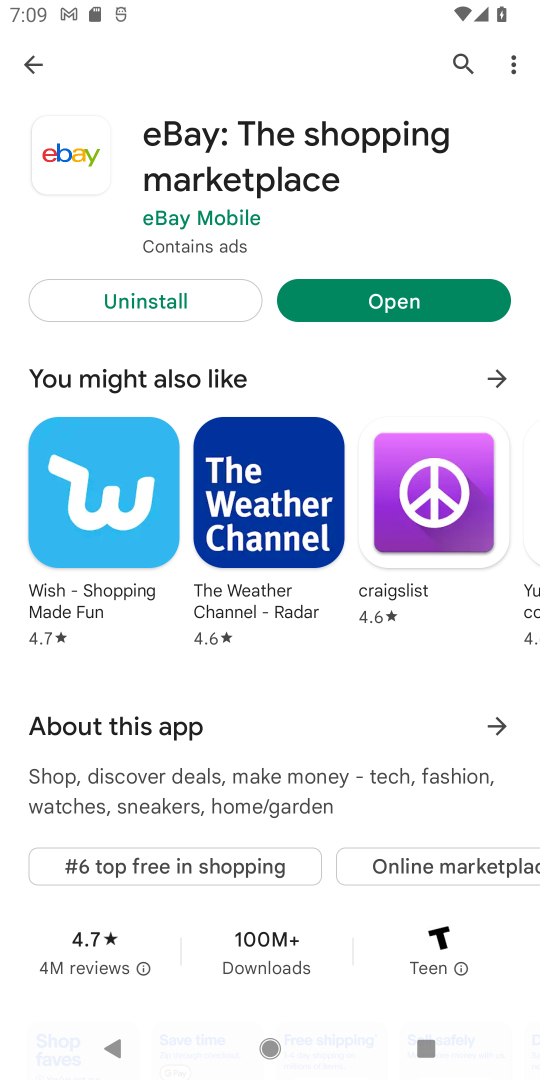
Step 54: drag from (279, 214) to (192, 918)
Your task to perform on an android device: open app "eBay: The shopping marketplace" (install if not already installed) Image 55: 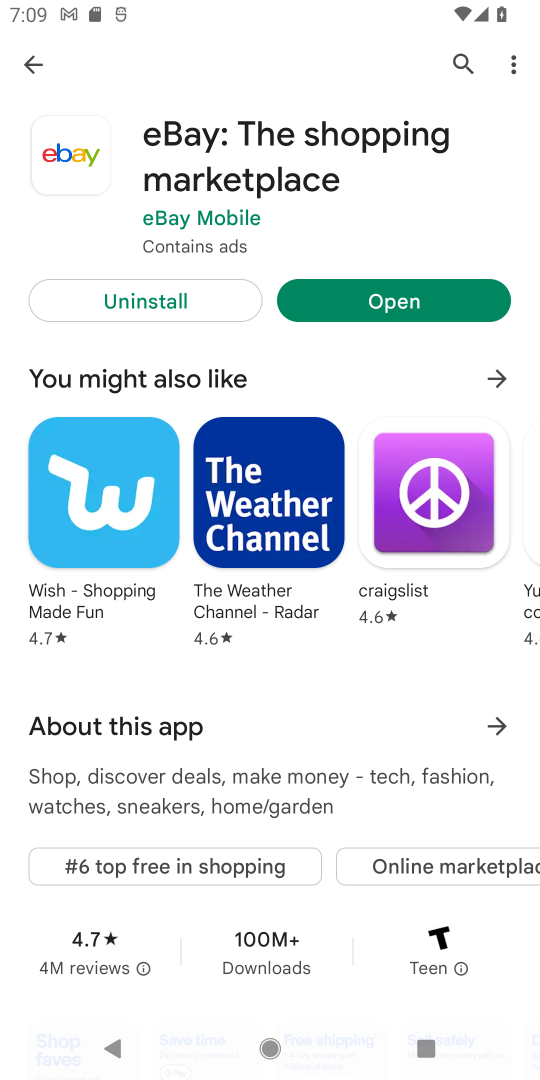
Step 55: drag from (281, 198) to (268, 622)
Your task to perform on an android device: open app "eBay: The shopping marketplace" (install if not already installed) Image 56: 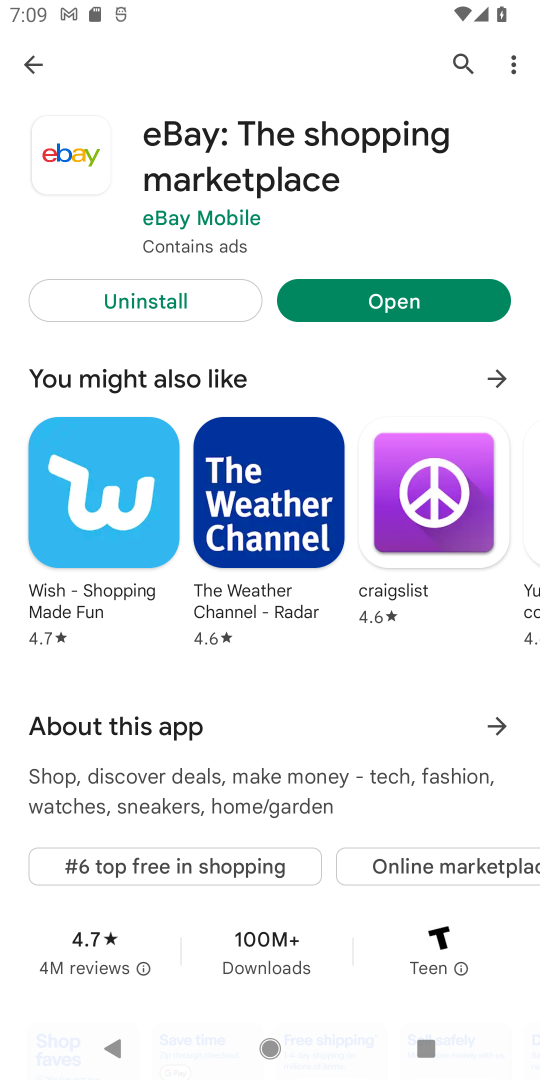
Step 56: click (353, 302)
Your task to perform on an android device: open app "eBay: The shopping marketplace" (install if not already installed) Image 57: 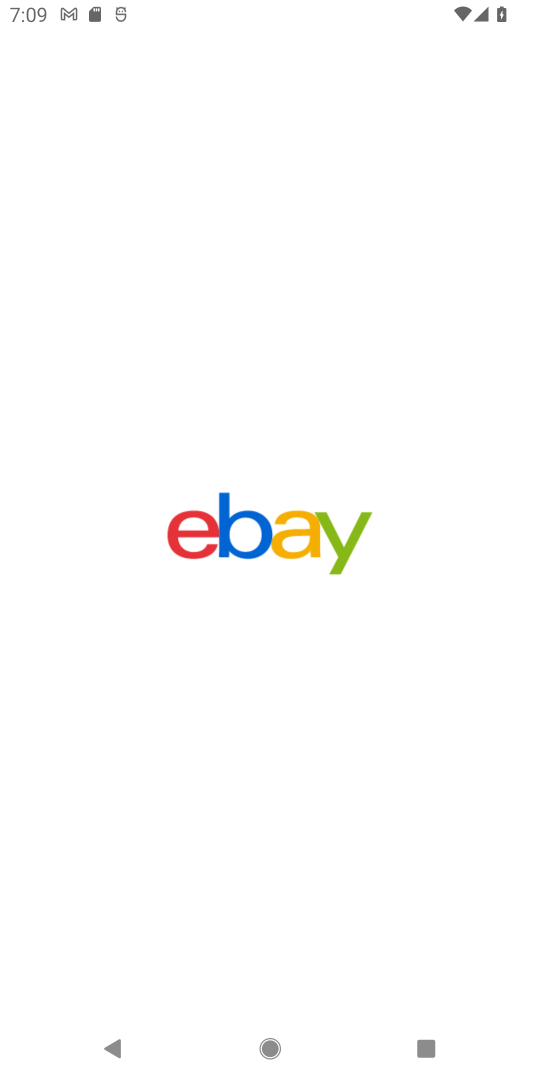
Step 57: task complete